Your task to perform on an android device: toggle location history Image 0: 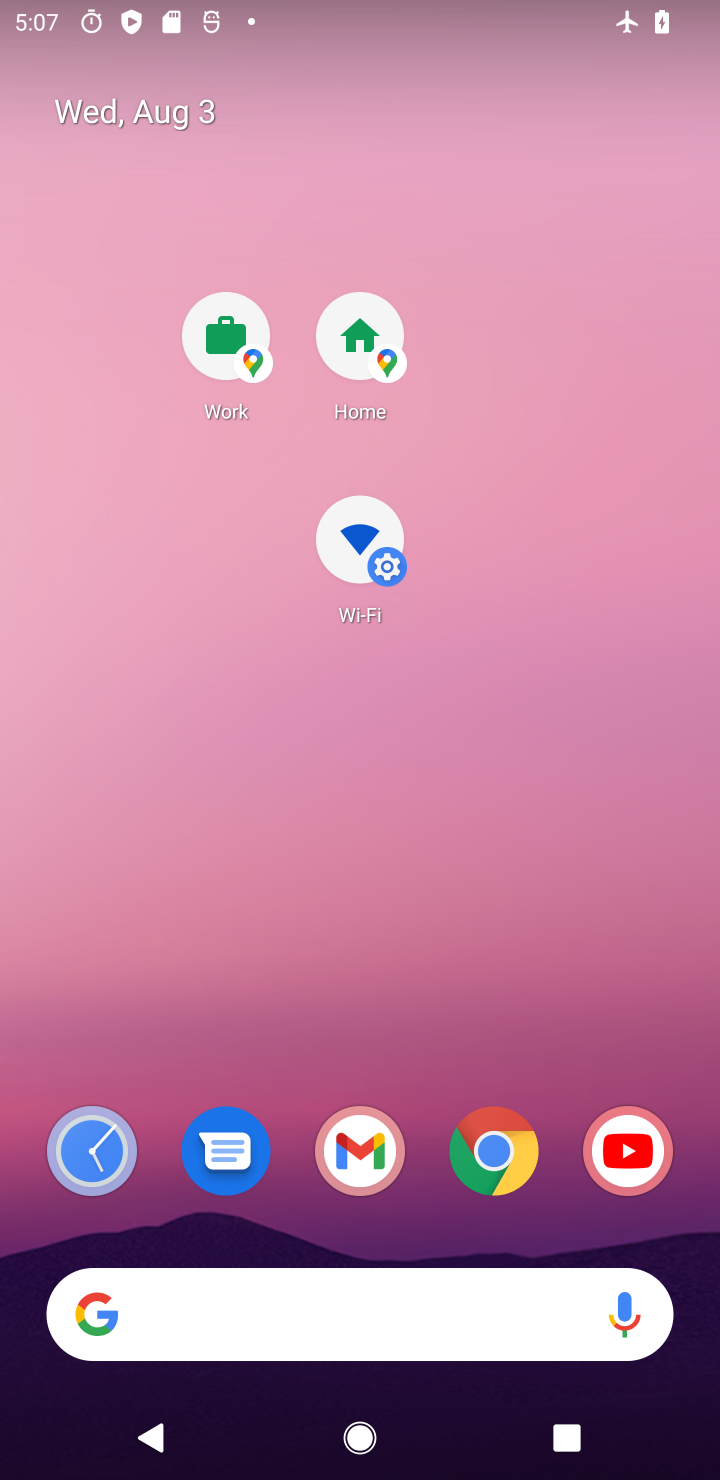
Step 0: drag from (365, 373) to (345, 267)
Your task to perform on an android device: toggle location history Image 1: 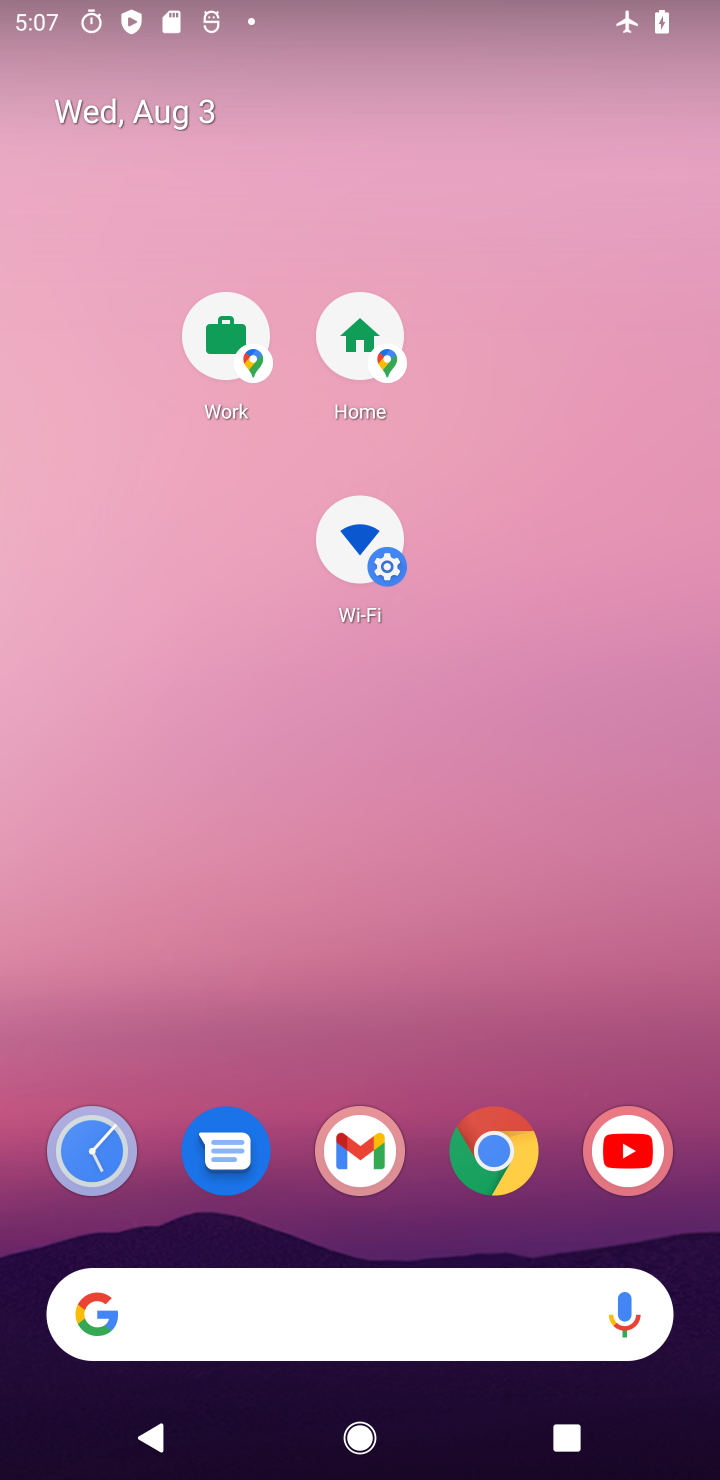
Step 1: drag from (398, 1315) to (233, 434)
Your task to perform on an android device: toggle location history Image 2: 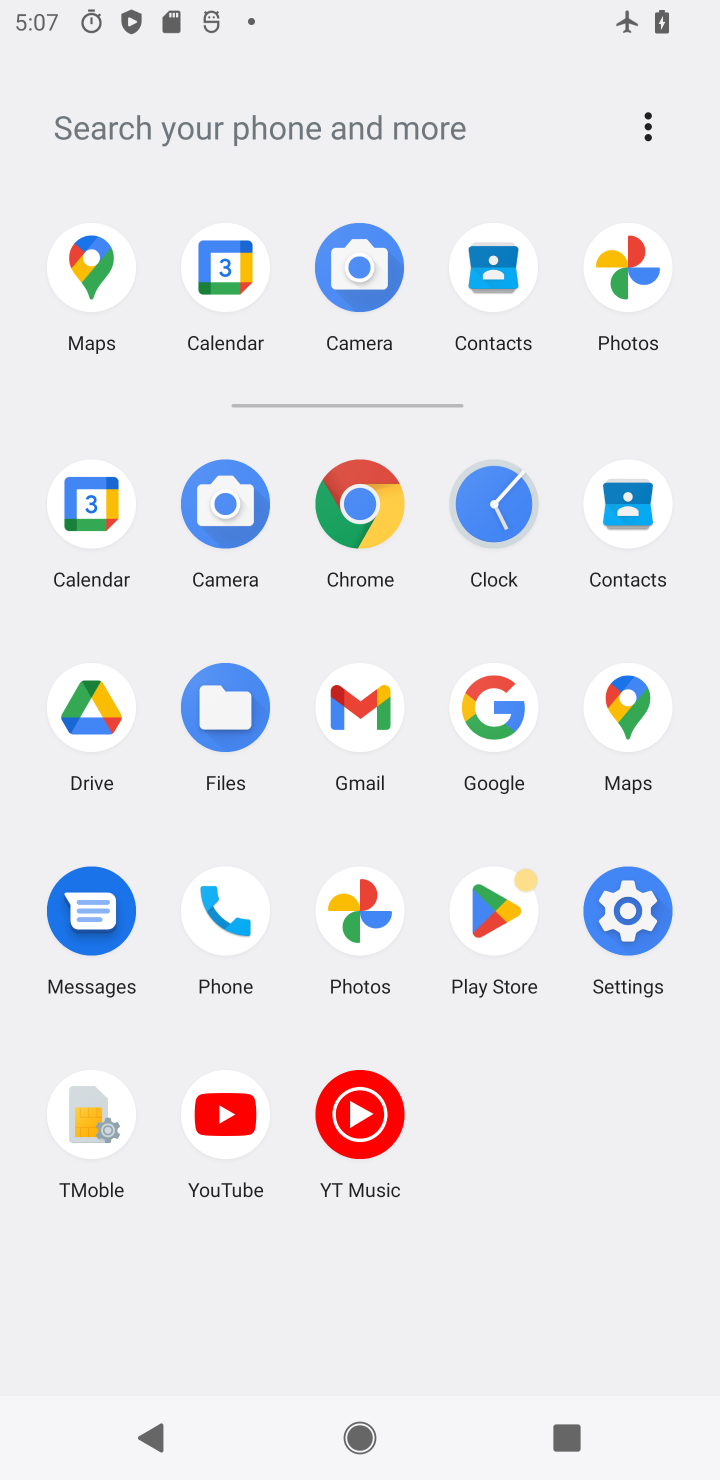
Step 2: click (635, 927)
Your task to perform on an android device: toggle location history Image 3: 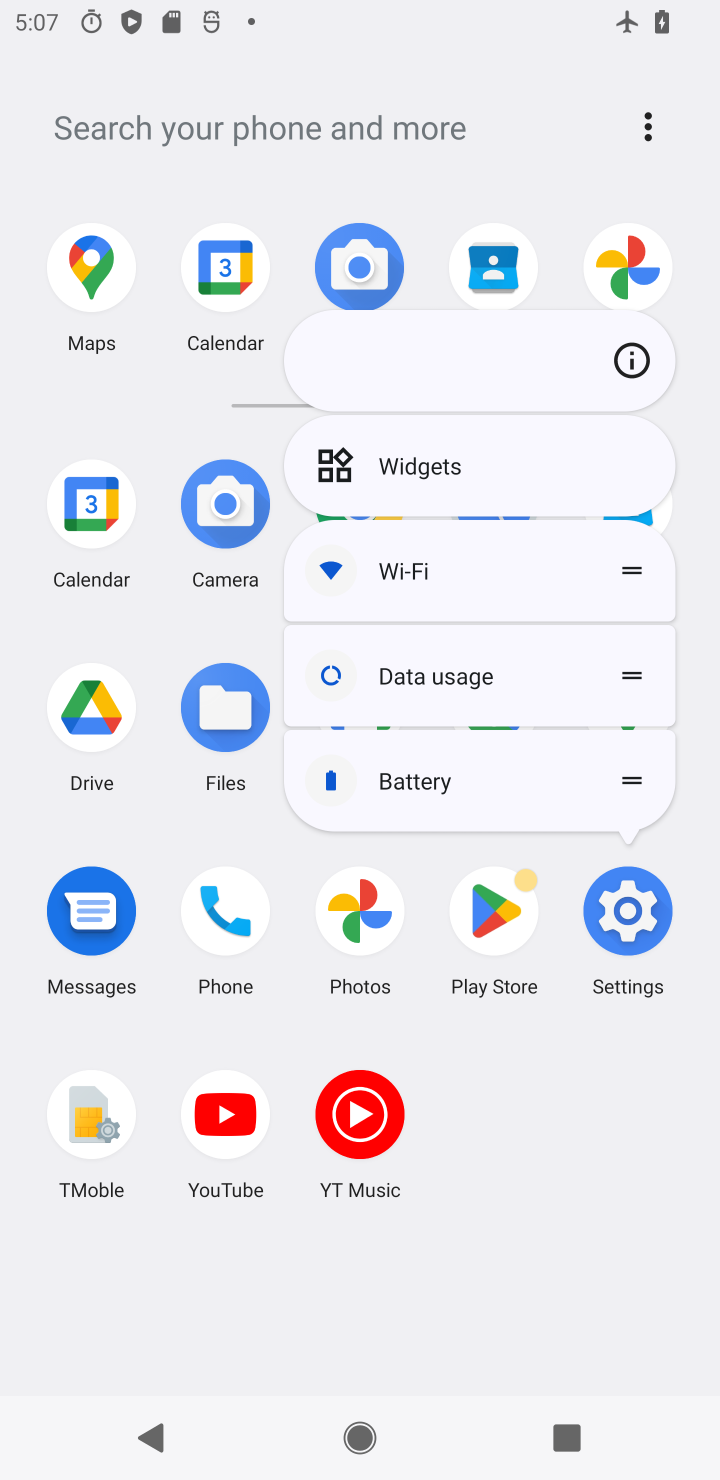
Step 3: click (614, 907)
Your task to perform on an android device: toggle location history Image 4: 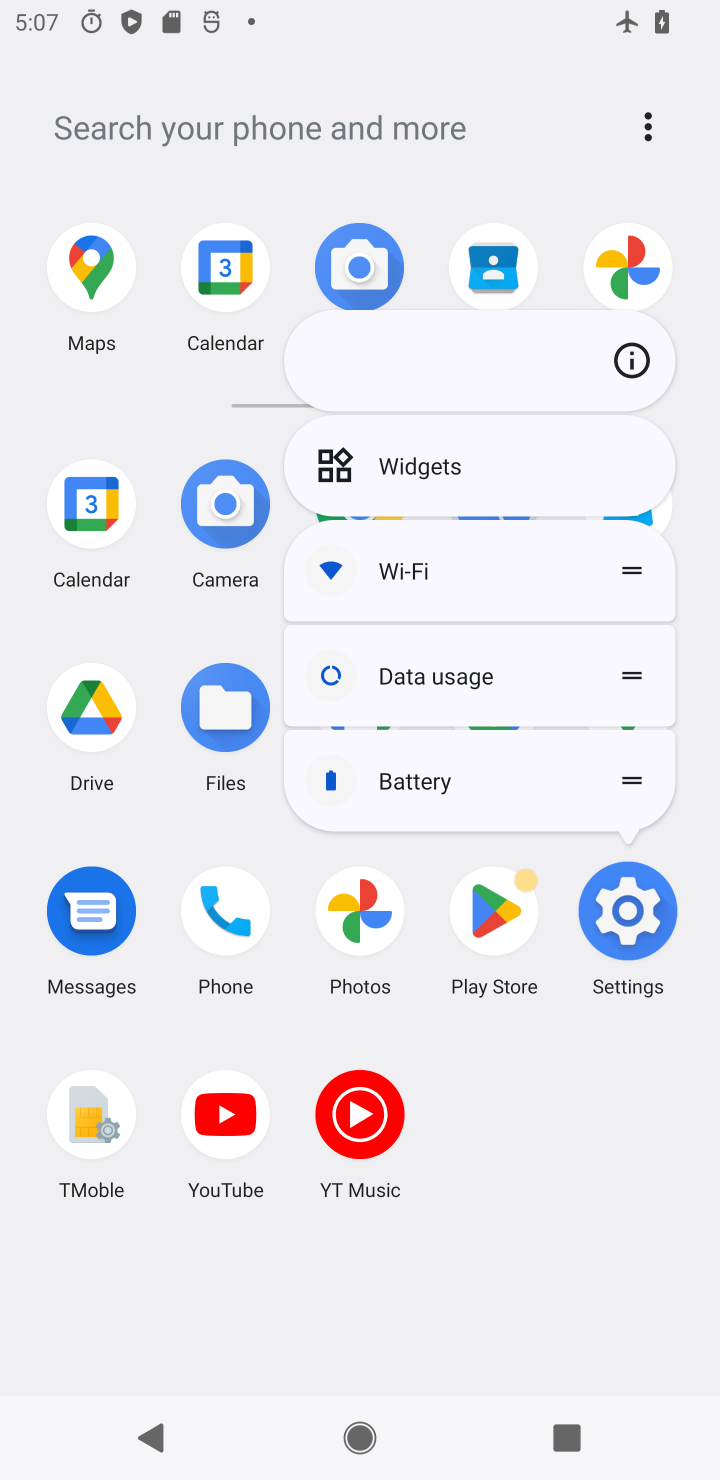
Step 4: click (614, 907)
Your task to perform on an android device: toggle location history Image 5: 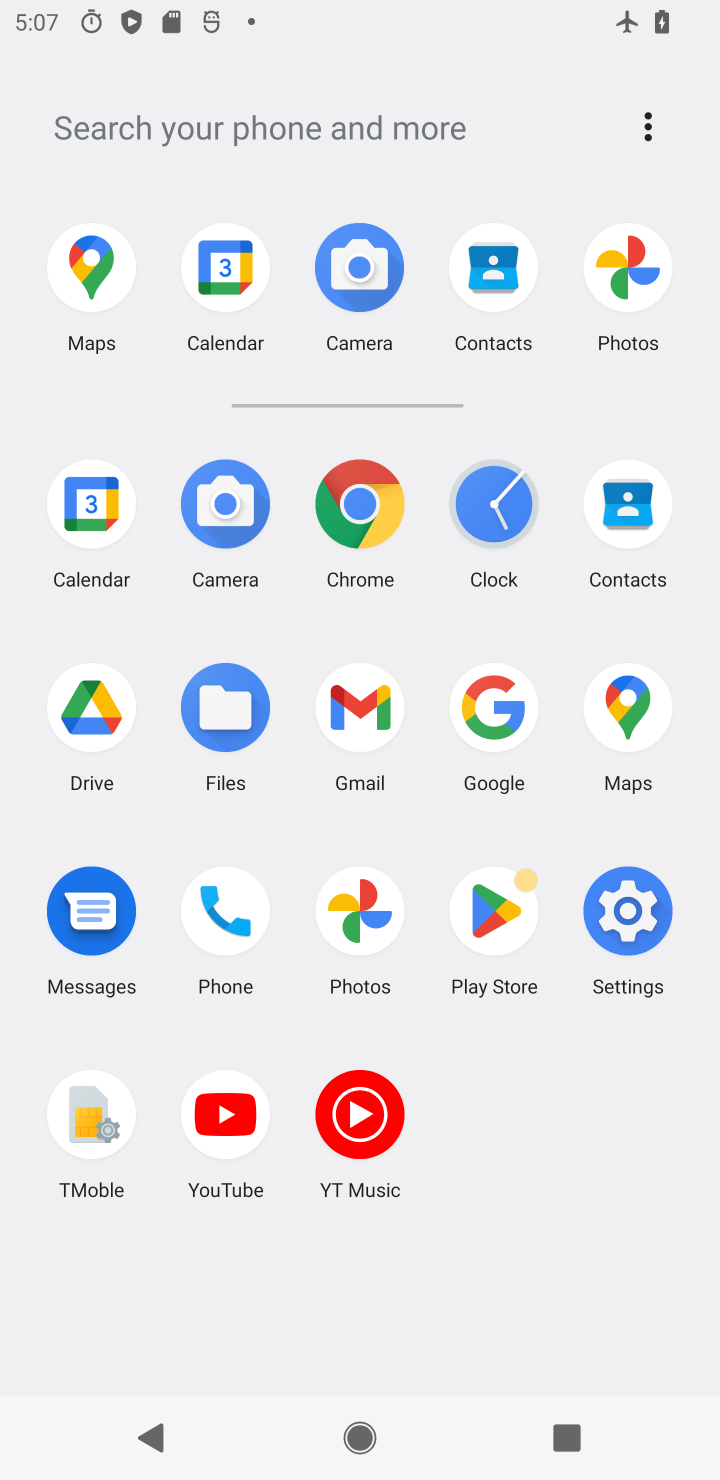
Step 5: click (634, 891)
Your task to perform on an android device: toggle location history Image 6: 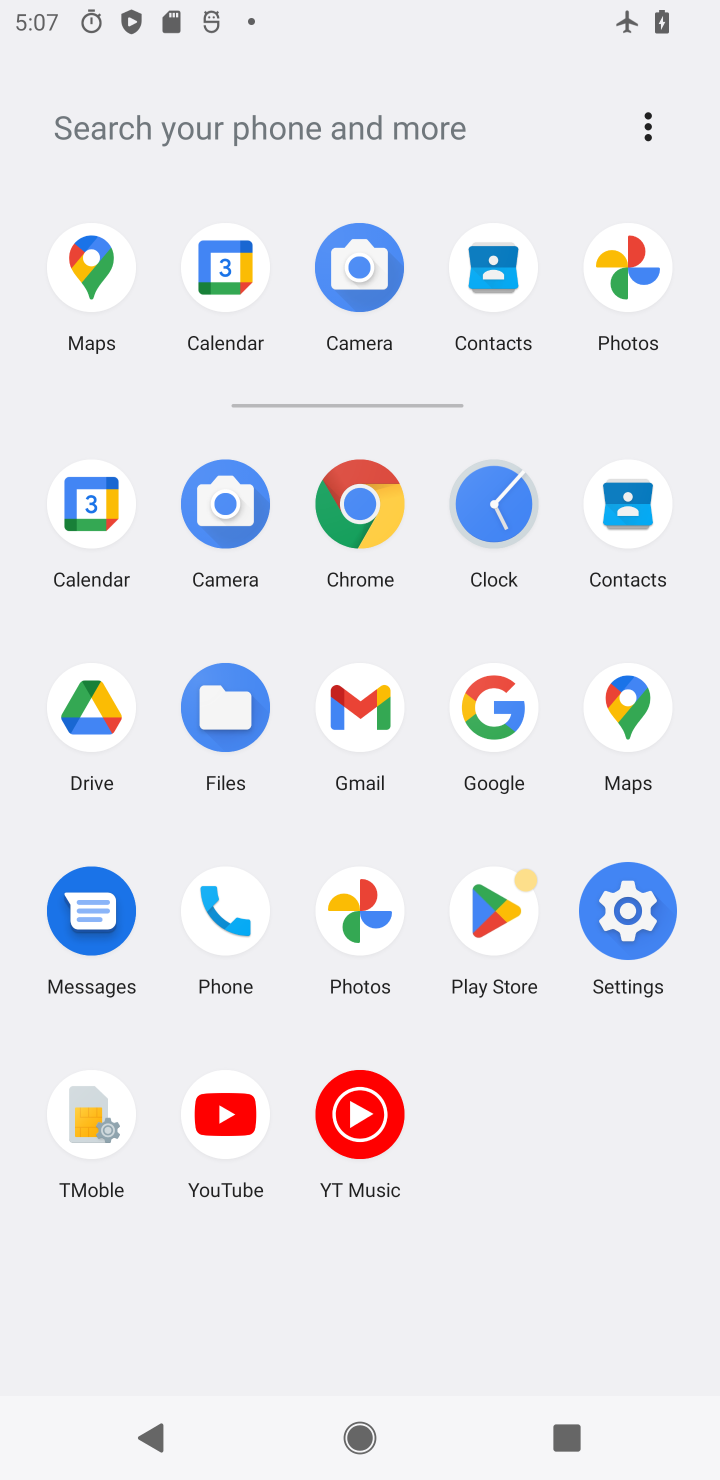
Step 6: click (636, 893)
Your task to perform on an android device: toggle location history Image 7: 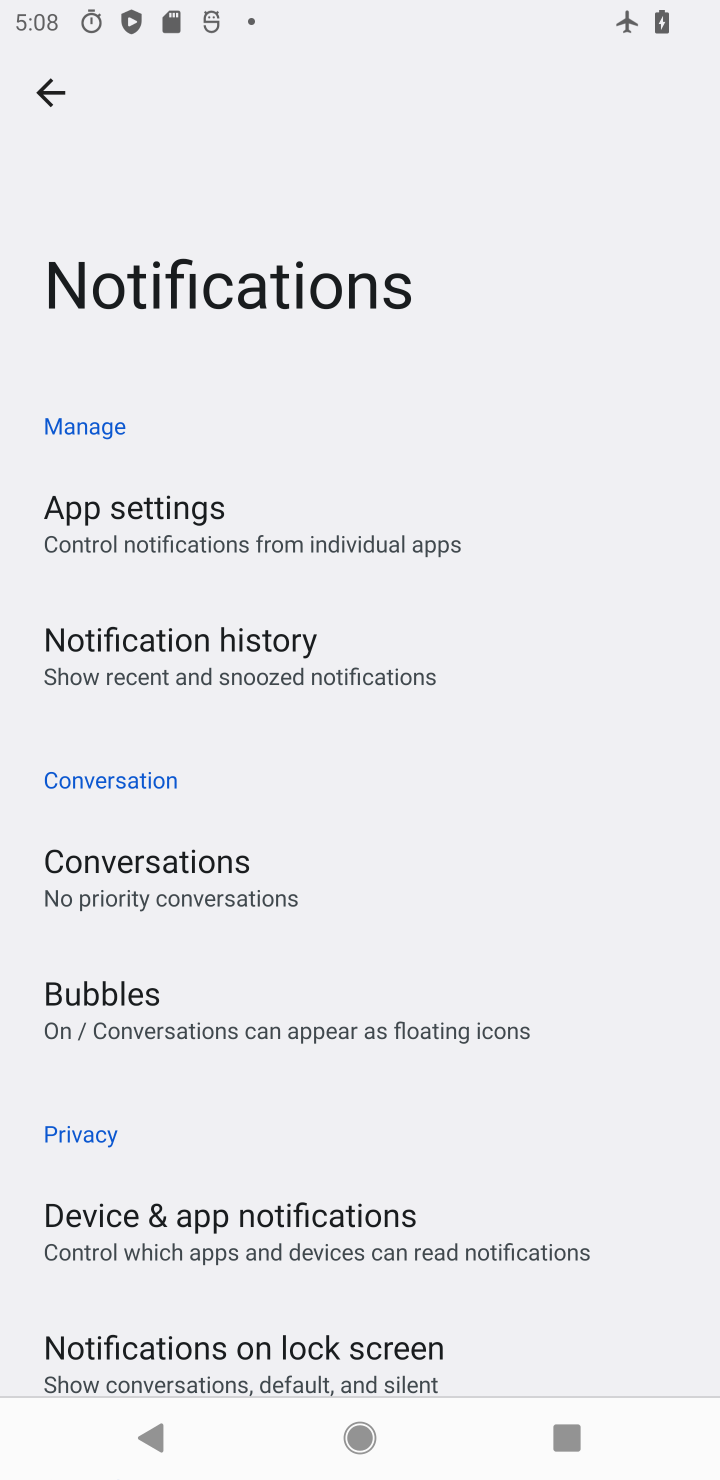
Step 7: drag from (238, 1167) to (178, 491)
Your task to perform on an android device: toggle location history Image 8: 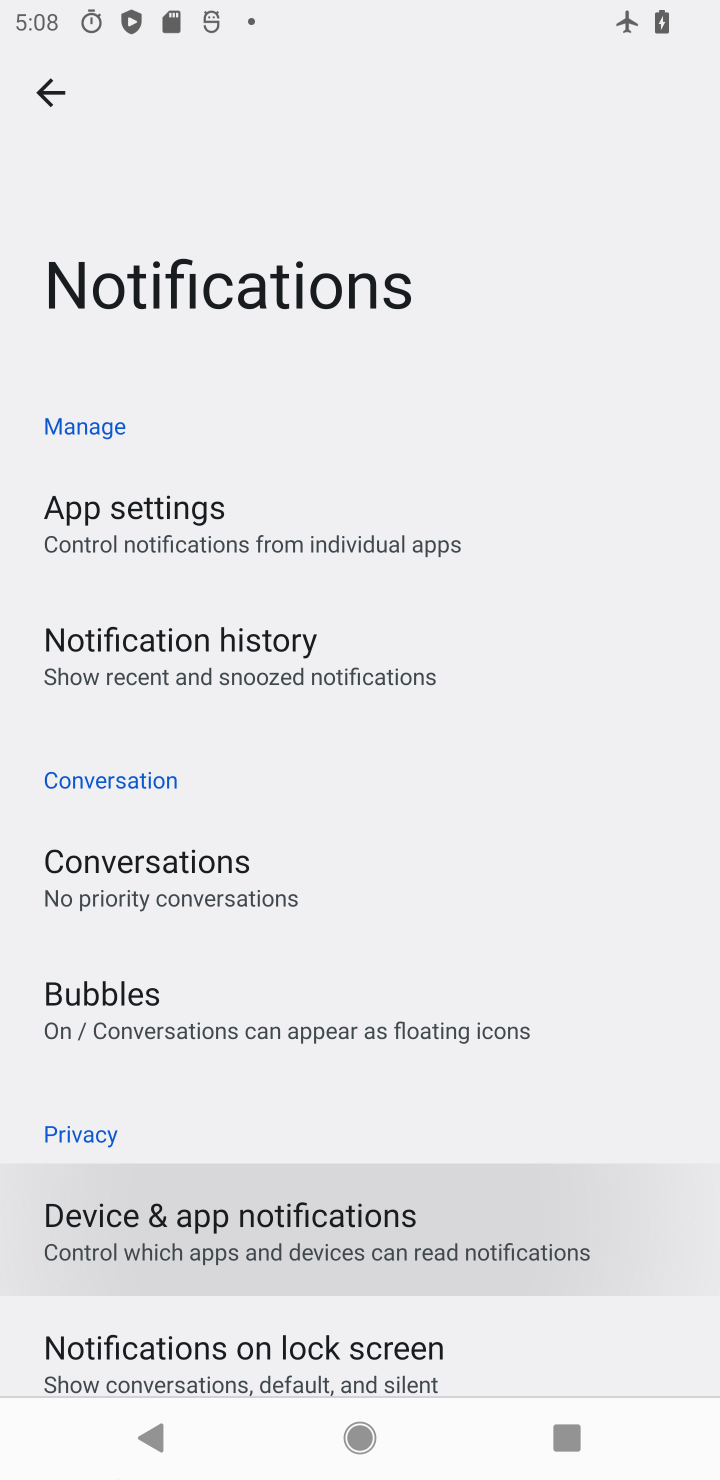
Step 8: click (203, 612)
Your task to perform on an android device: toggle location history Image 9: 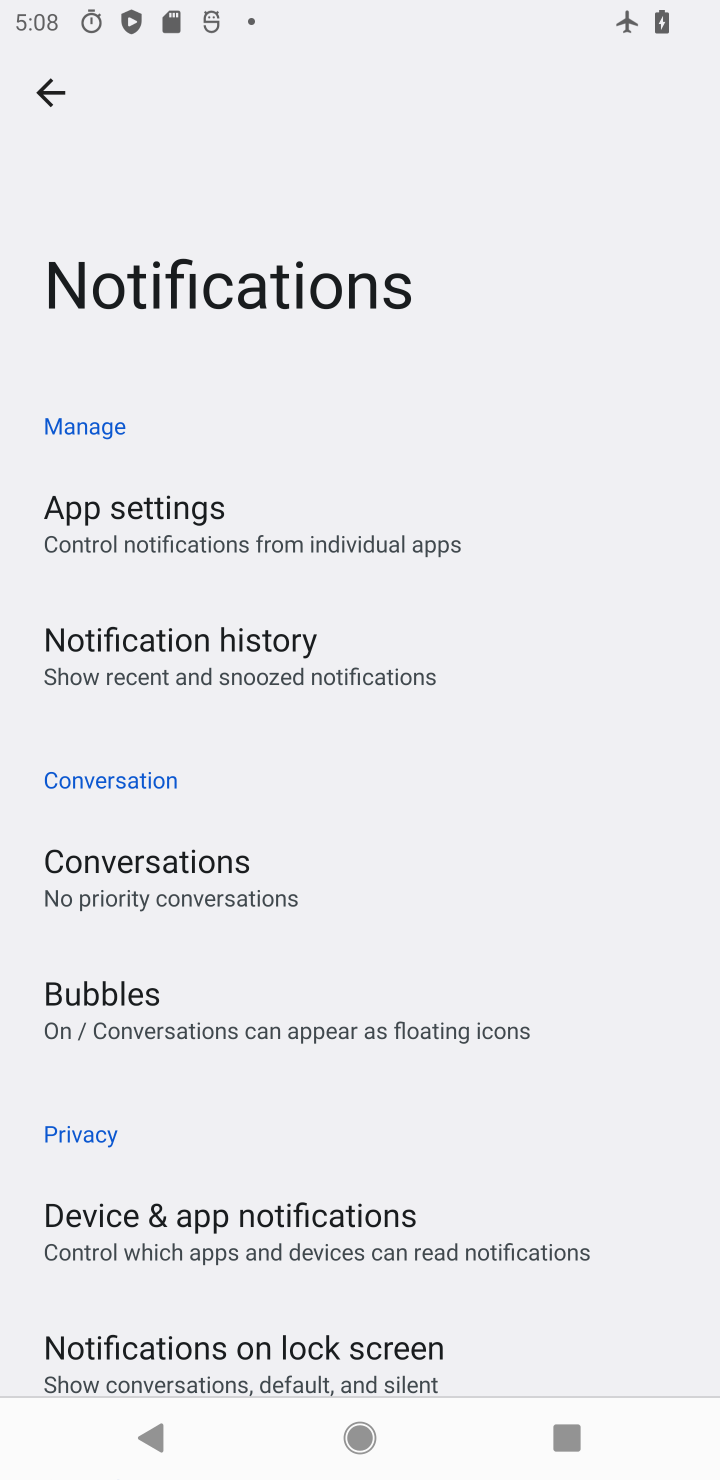
Step 9: drag from (250, 966) to (261, 537)
Your task to perform on an android device: toggle location history Image 10: 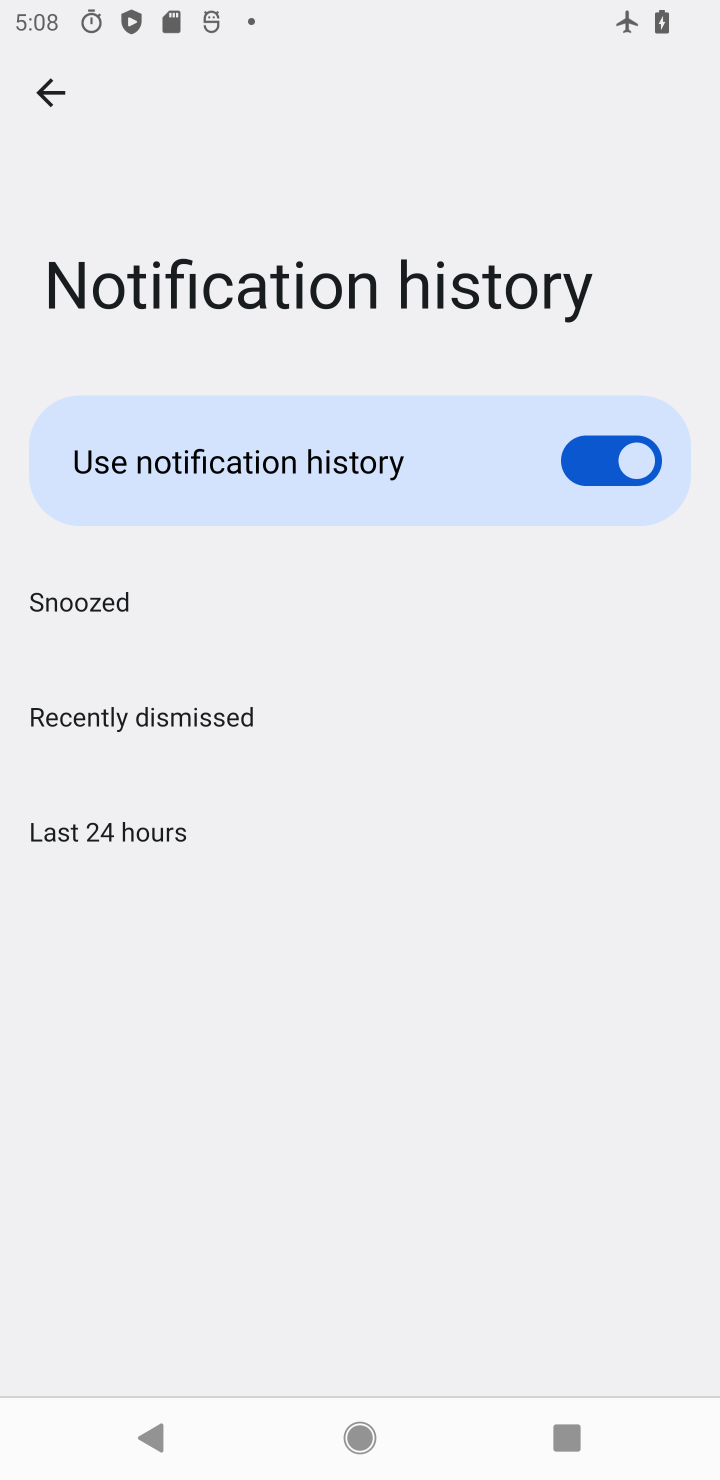
Step 10: drag from (301, 1013) to (240, 544)
Your task to perform on an android device: toggle location history Image 11: 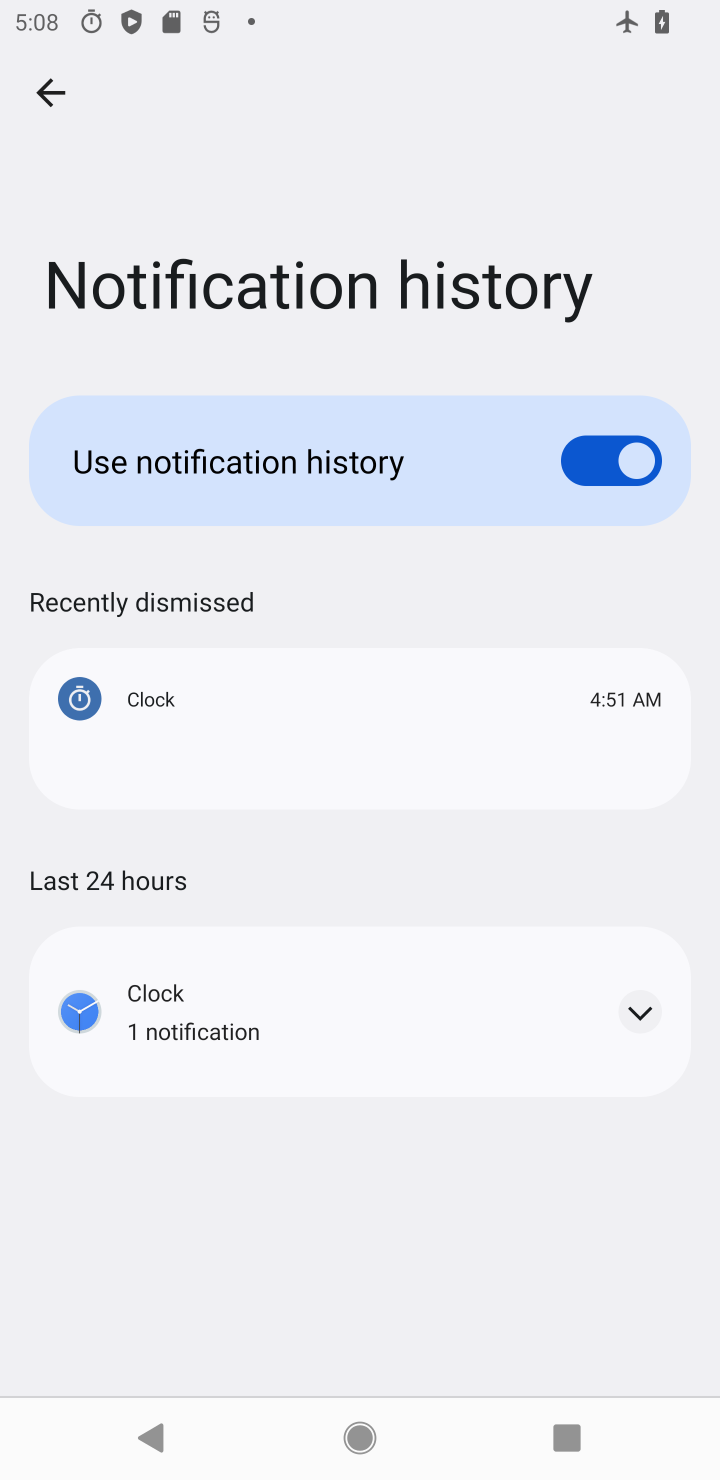
Step 11: click (50, 67)
Your task to perform on an android device: toggle location history Image 12: 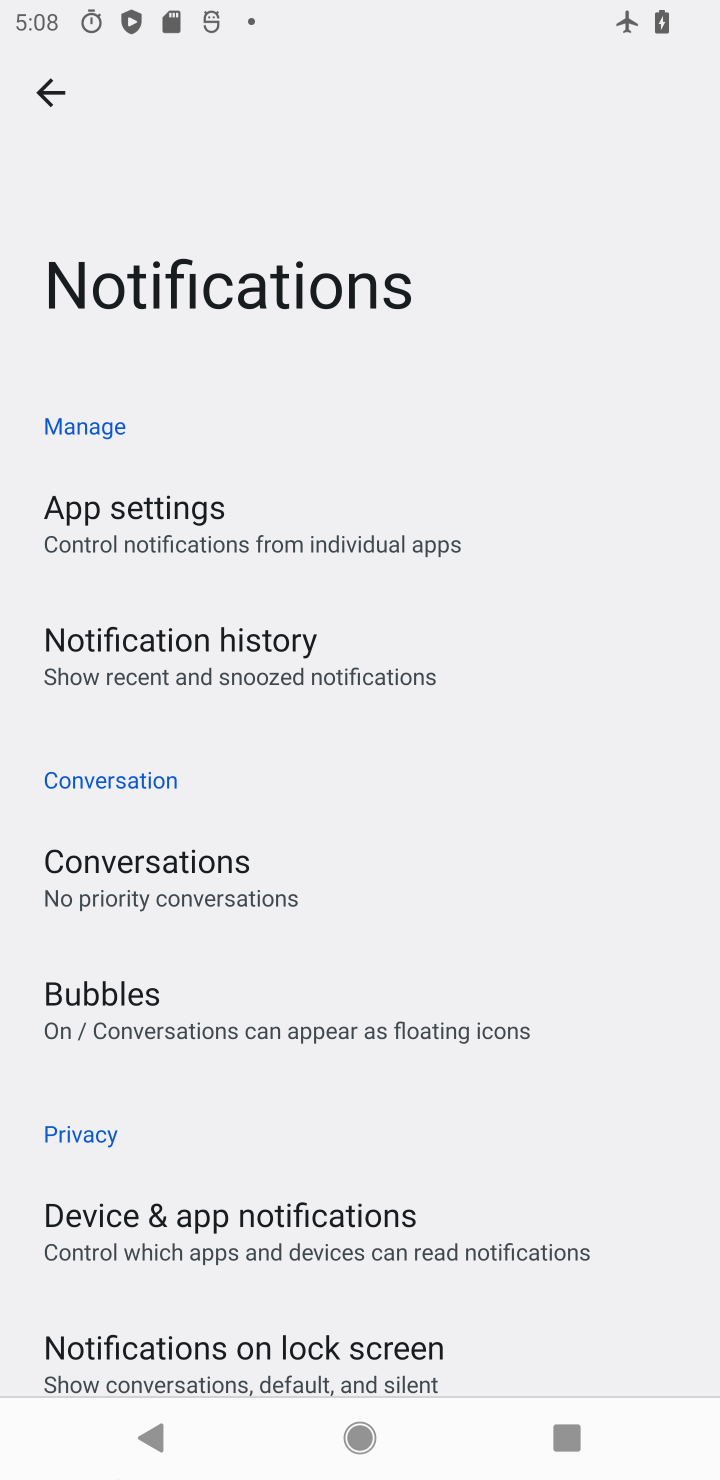
Step 12: drag from (236, 1297) to (190, 713)
Your task to perform on an android device: toggle location history Image 13: 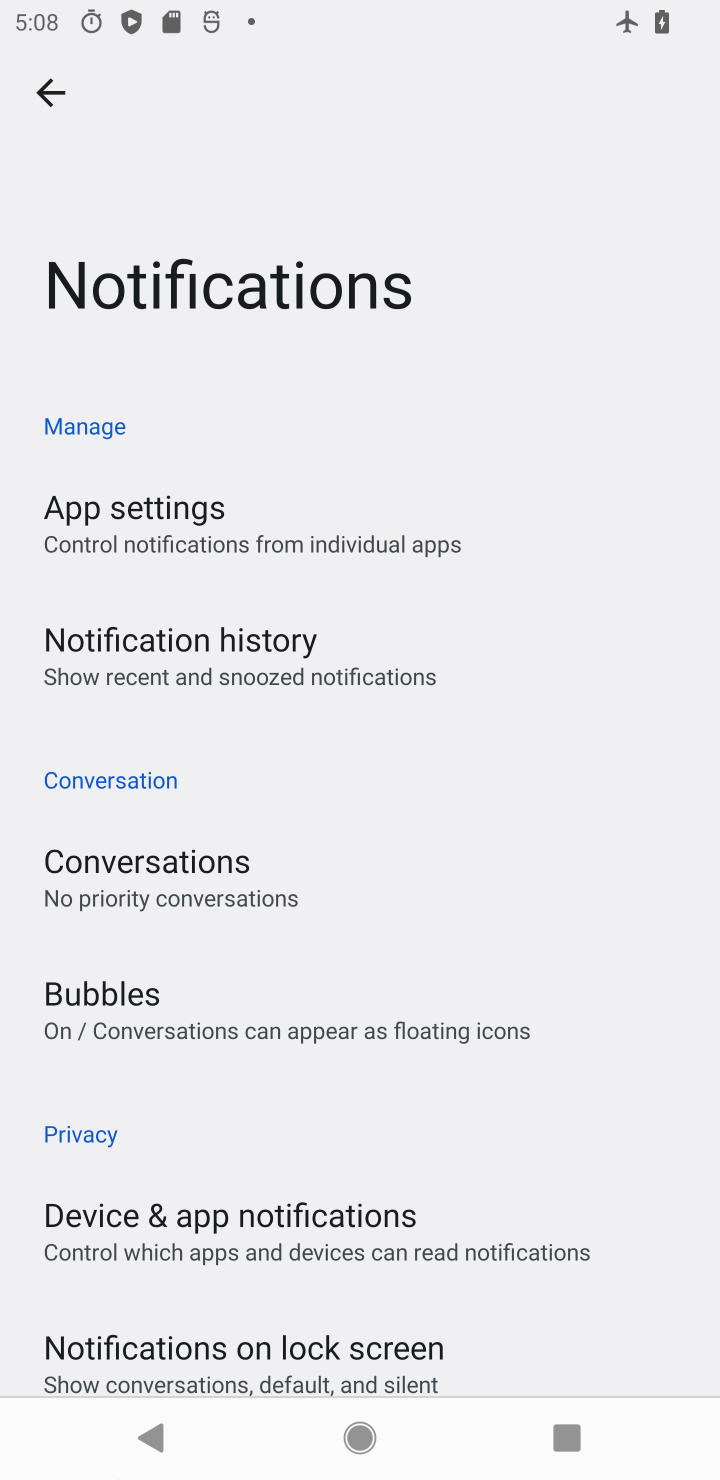
Step 13: drag from (386, 1071) to (441, 620)
Your task to perform on an android device: toggle location history Image 14: 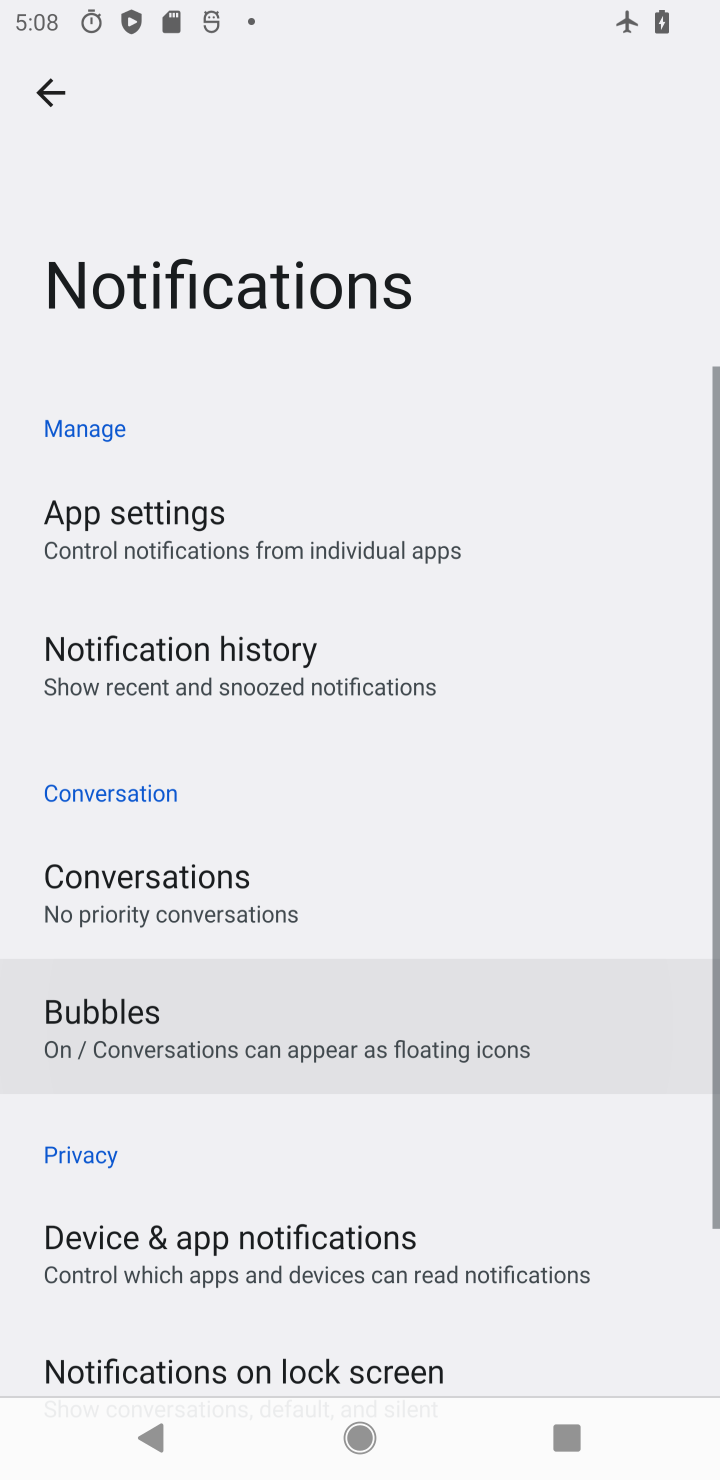
Step 14: drag from (371, 869) to (344, 682)
Your task to perform on an android device: toggle location history Image 15: 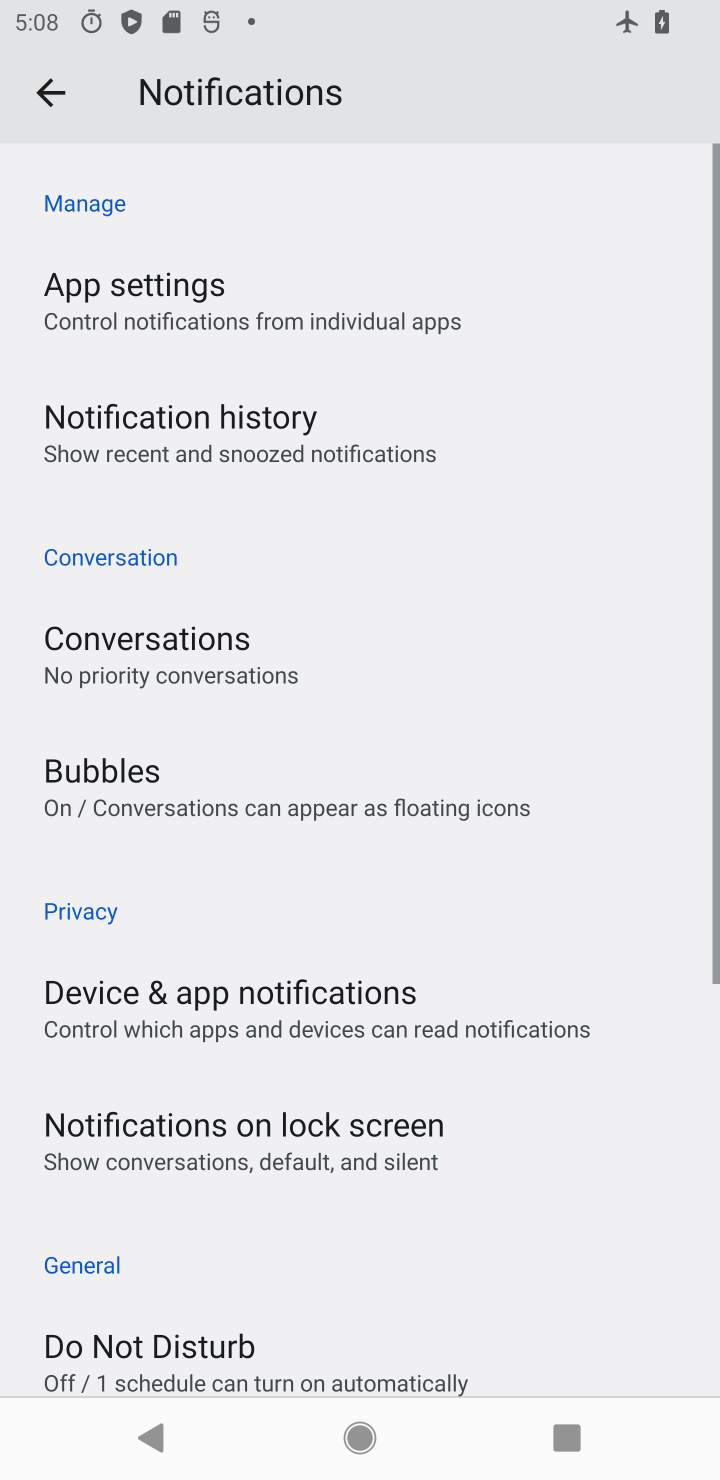
Step 15: click (52, 97)
Your task to perform on an android device: toggle location history Image 16: 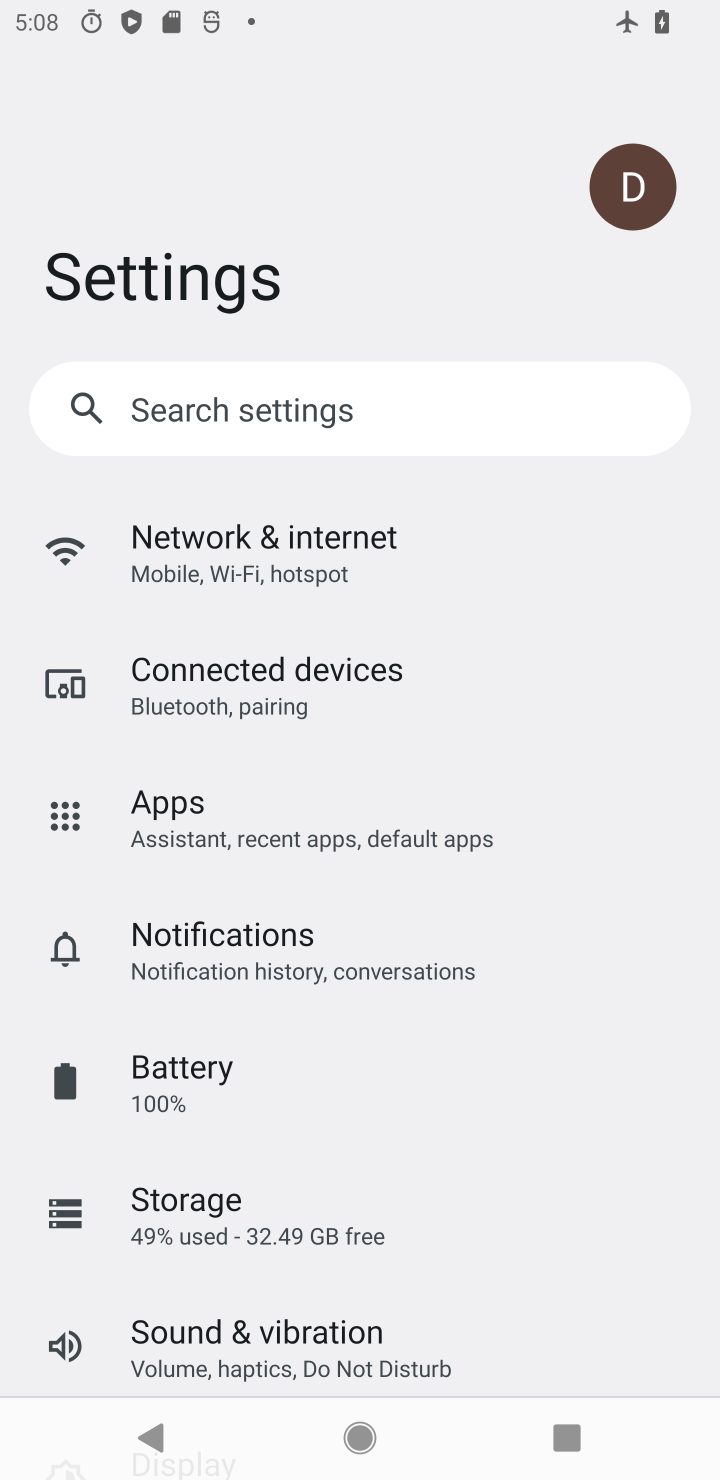
Step 16: drag from (242, 1148) to (165, 563)
Your task to perform on an android device: toggle location history Image 17: 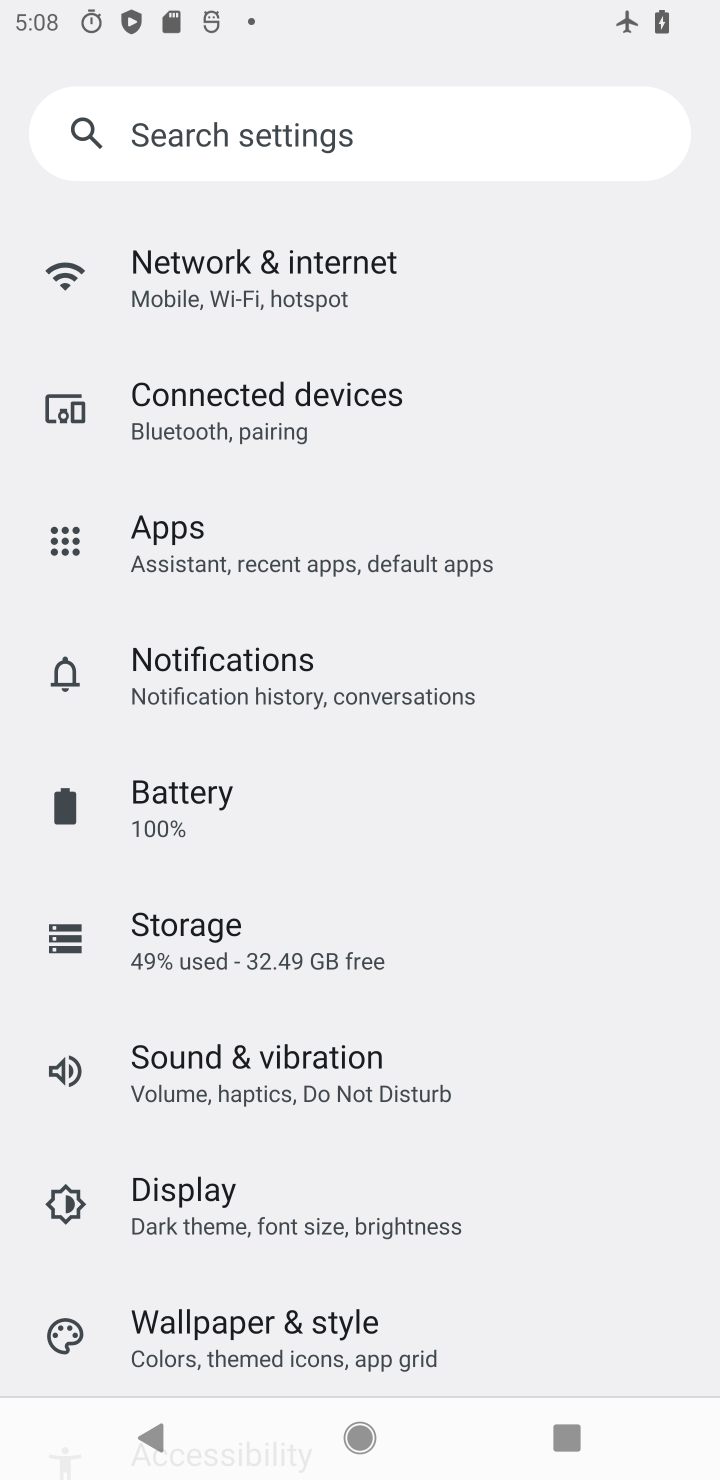
Step 17: drag from (175, 910) to (105, 443)
Your task to perform on an android device: toggle location history Image 18: 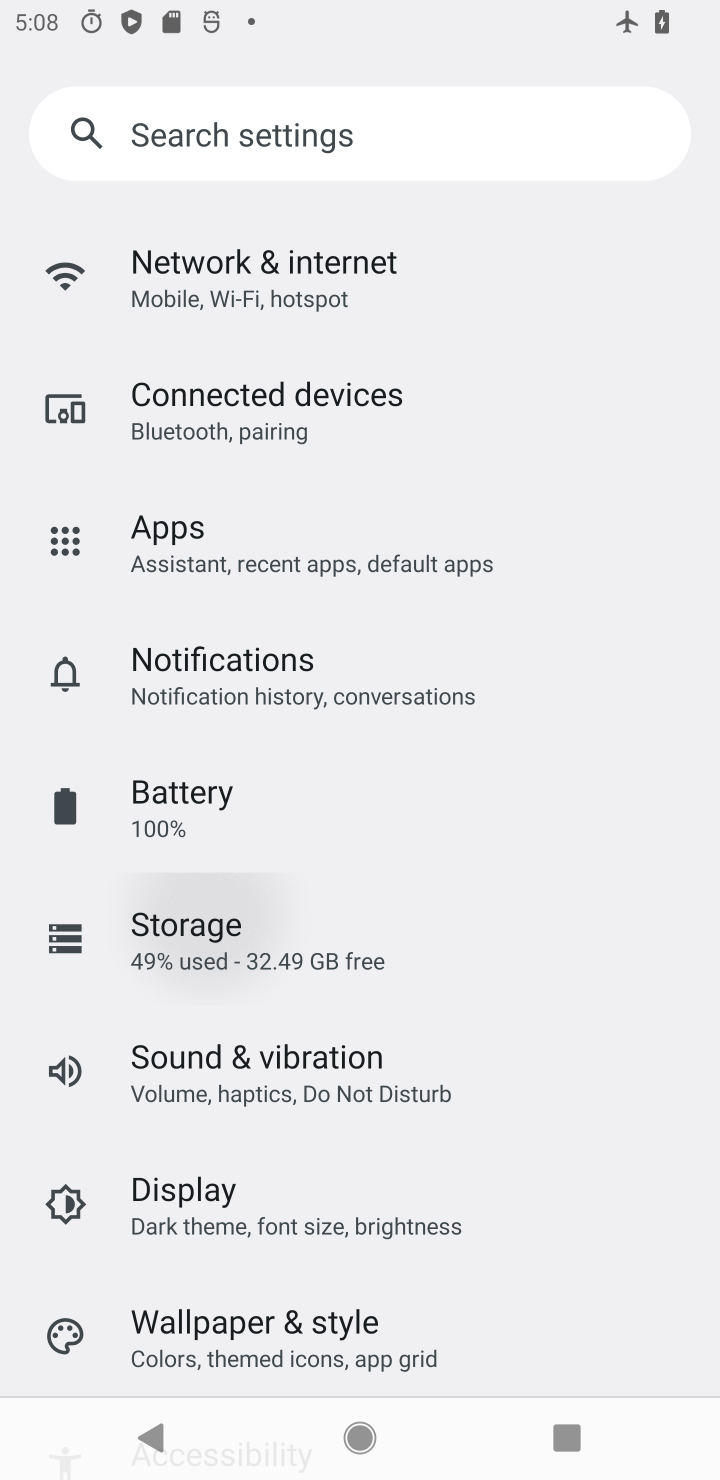
Step 18: drag from (181, 860) to (174, 506)
Your task to perform on an android device: toggle location history Image 19: 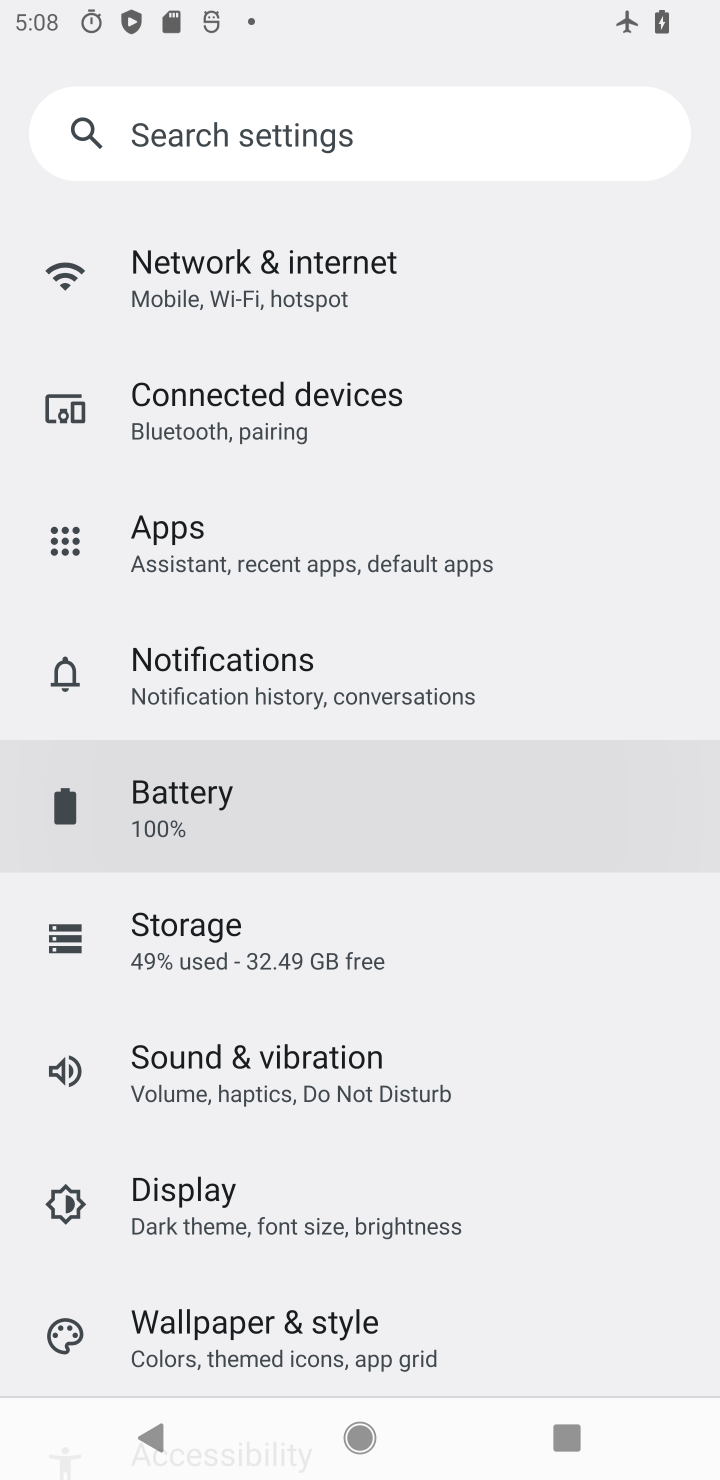
Step 19: drag from (283, 1117) to (306, 600)
Your task to perform on an android device: toggle location history Image 20: 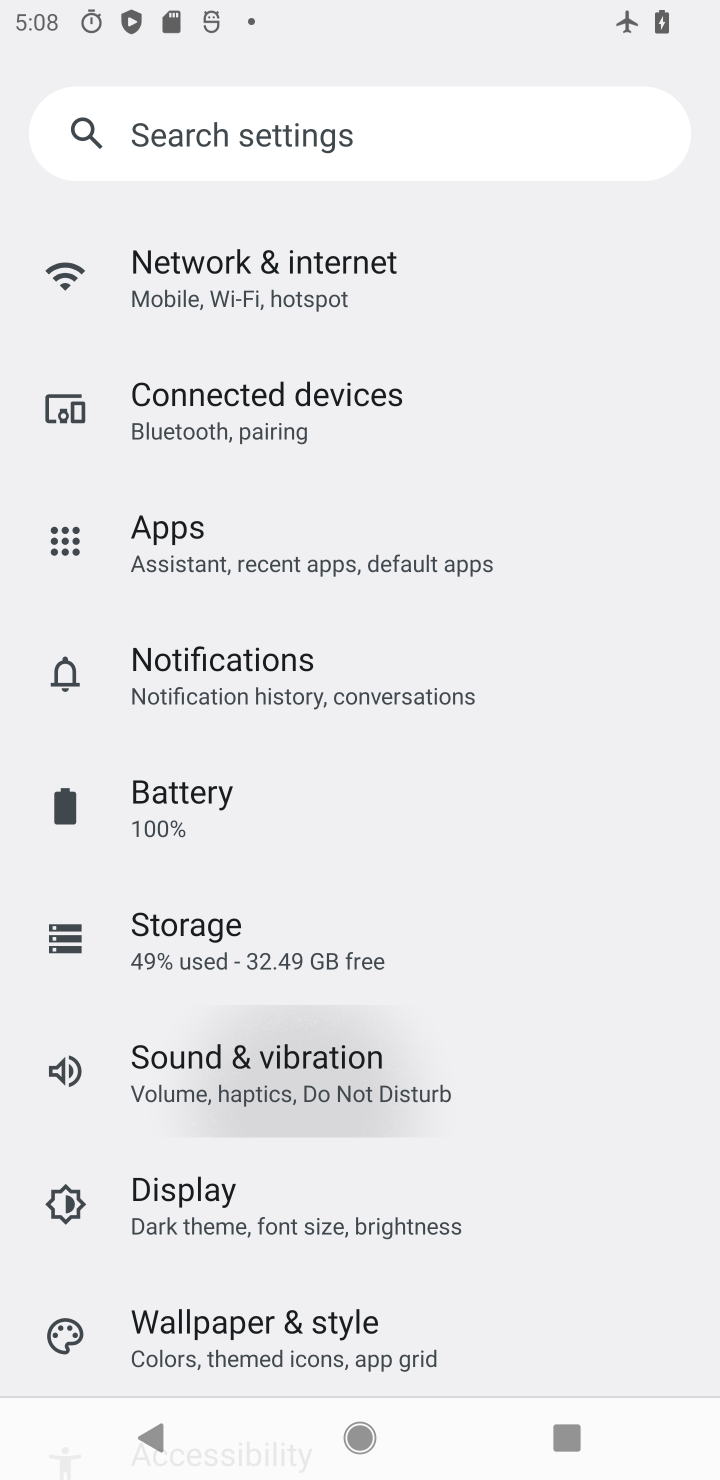
Step 20: drag from (229, 1133) to (171, 648)
Your task to perform on an android device: toggle location history Image 21: 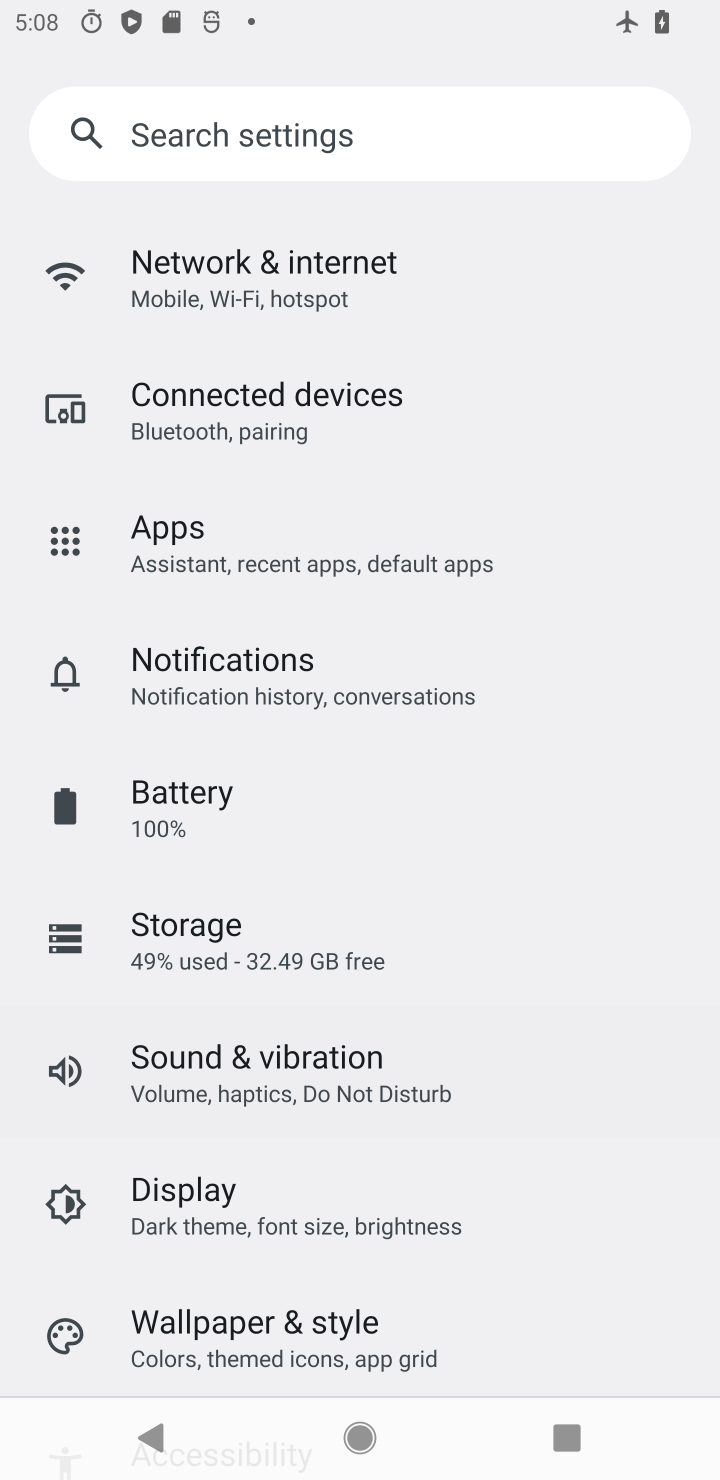
Step 21: drag from (248, 1230) to (154, 713)
Your task to perform on an android device: toggle location history Image 22: 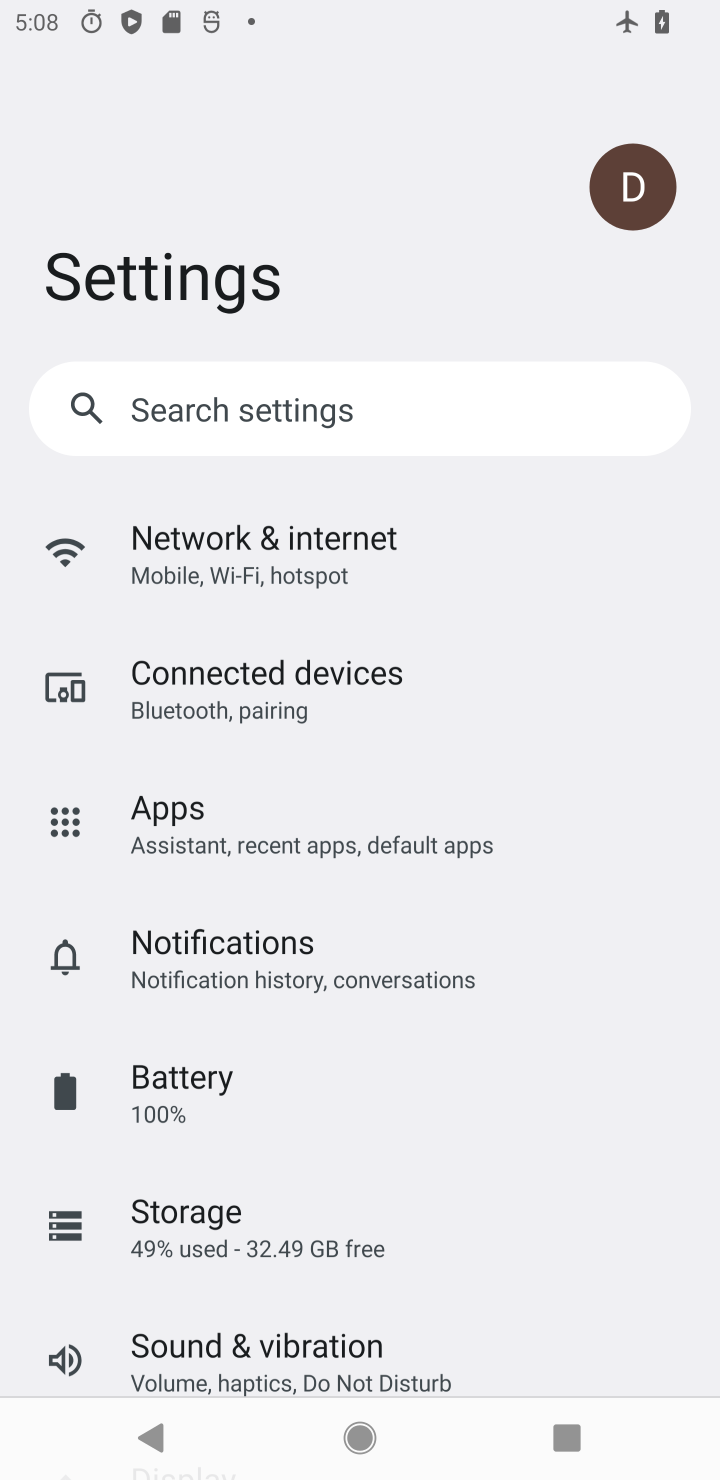
Step 22: drag from (244, 1139) to (324, 543)
Your task to perform on an android device: toggle location history Image 23: 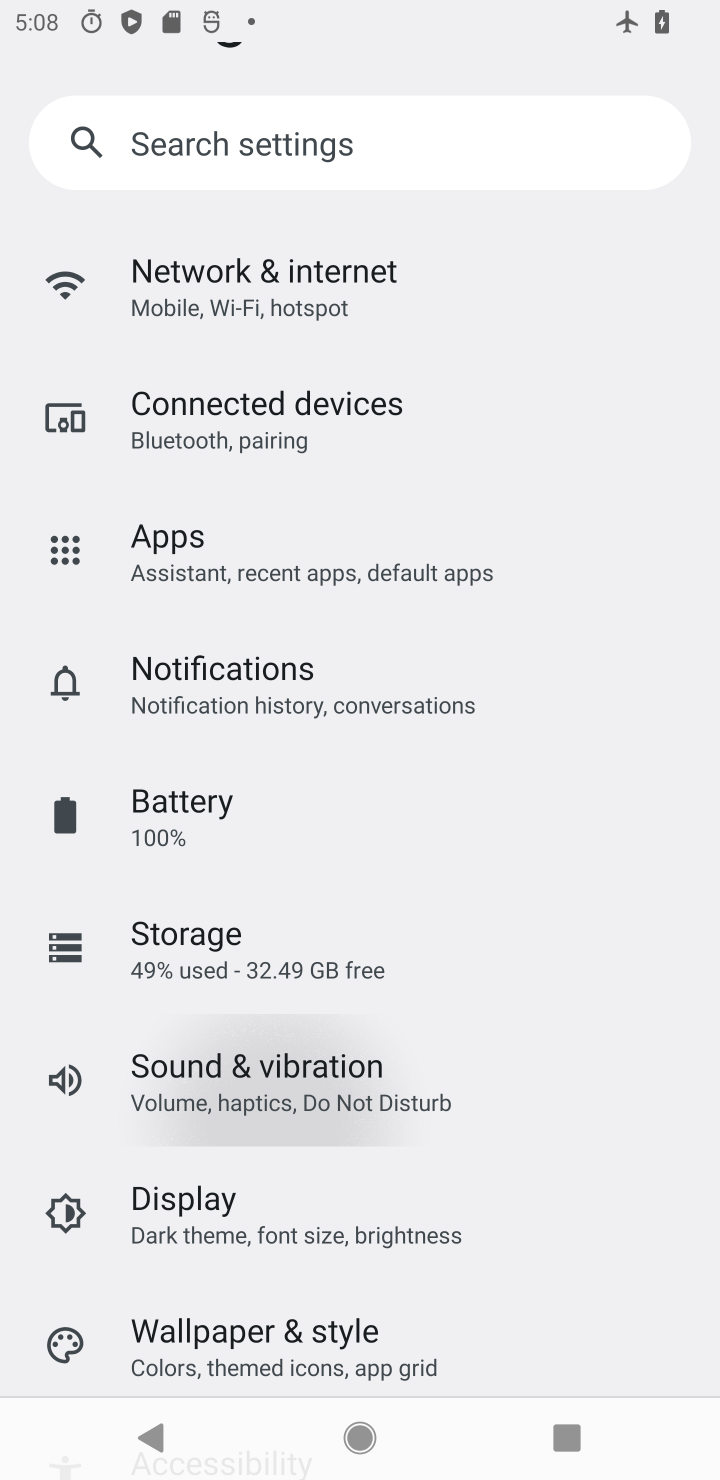
Step 23: click (361, 540)
Your task to perform on an android device: toggle location history Image 24: 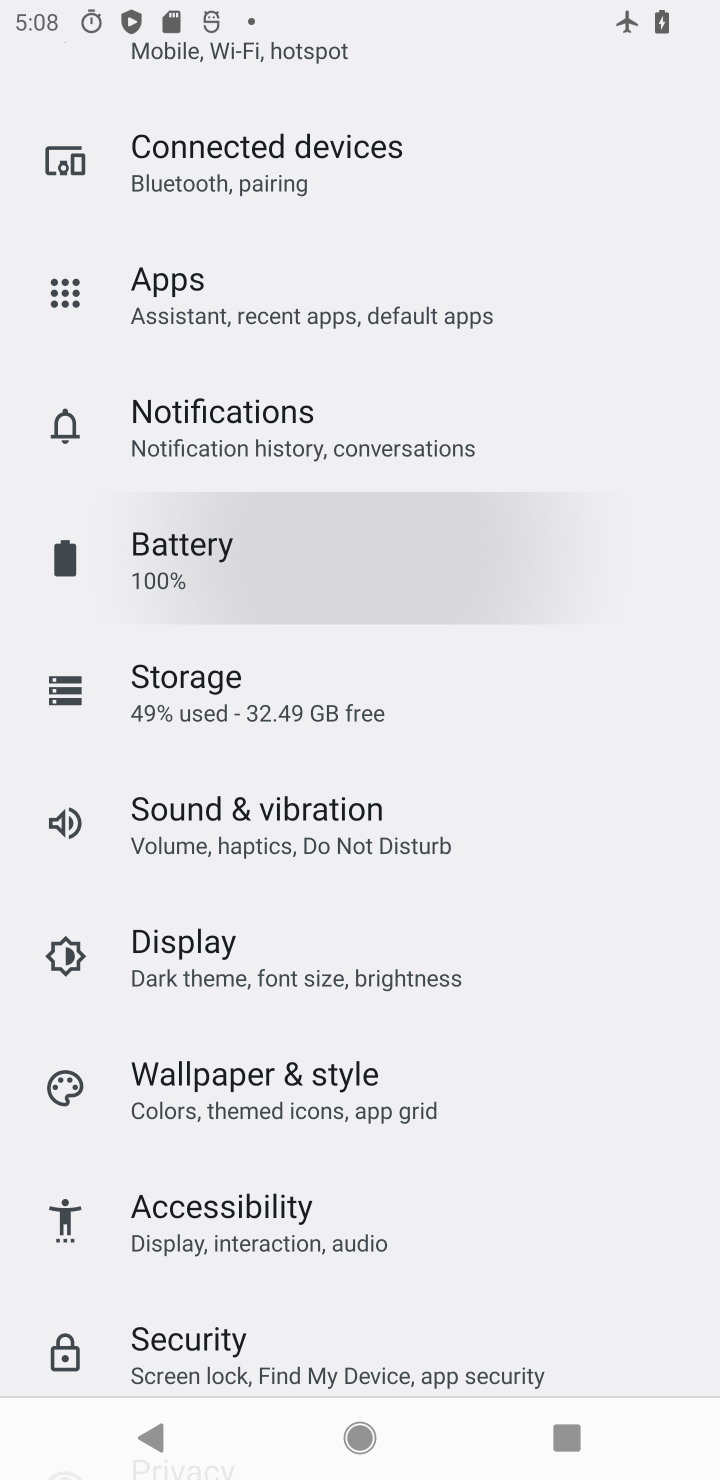
Step 24: drag from (463, 1203) to (575, 370)
Your task to perform on an android device: toggle location history Image 25: 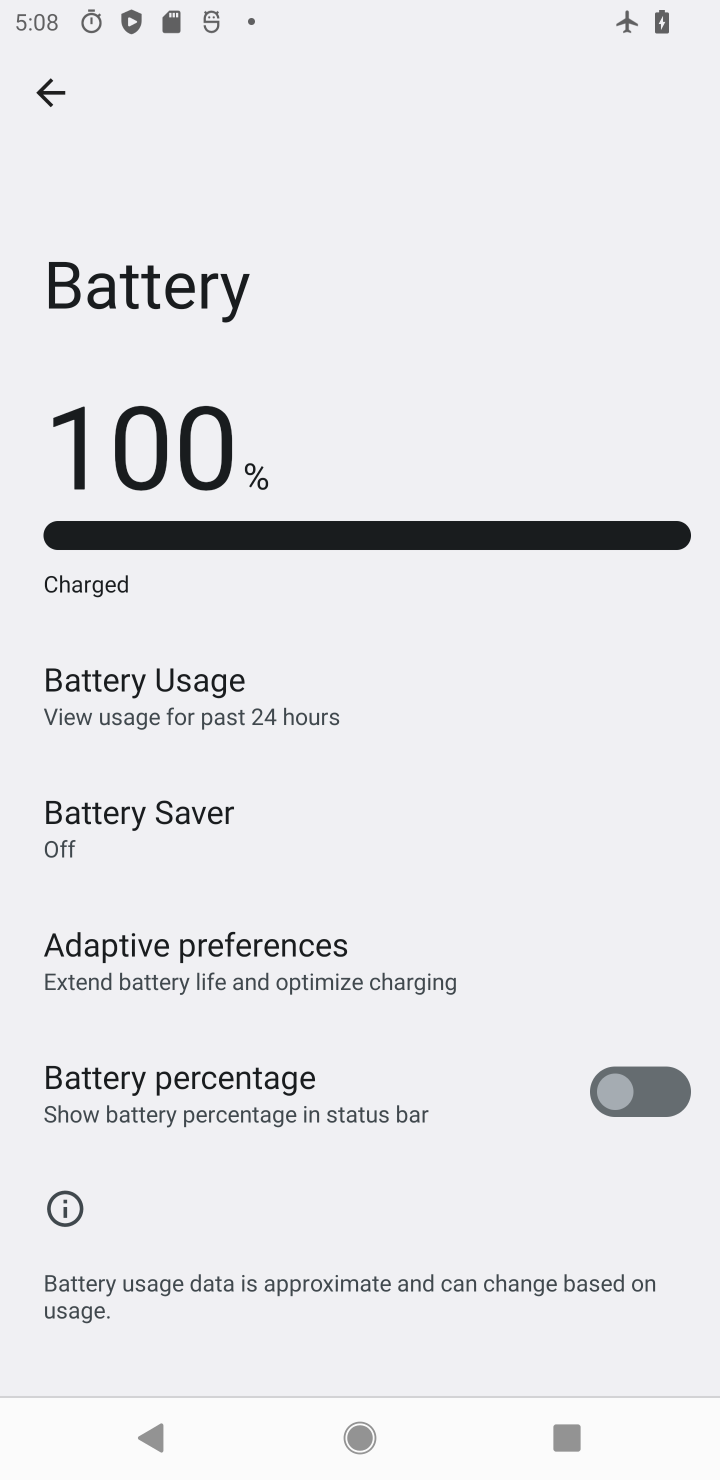
Step 25: click (37, 117)
Your task to perform on an android device: toggle location history Image 26: 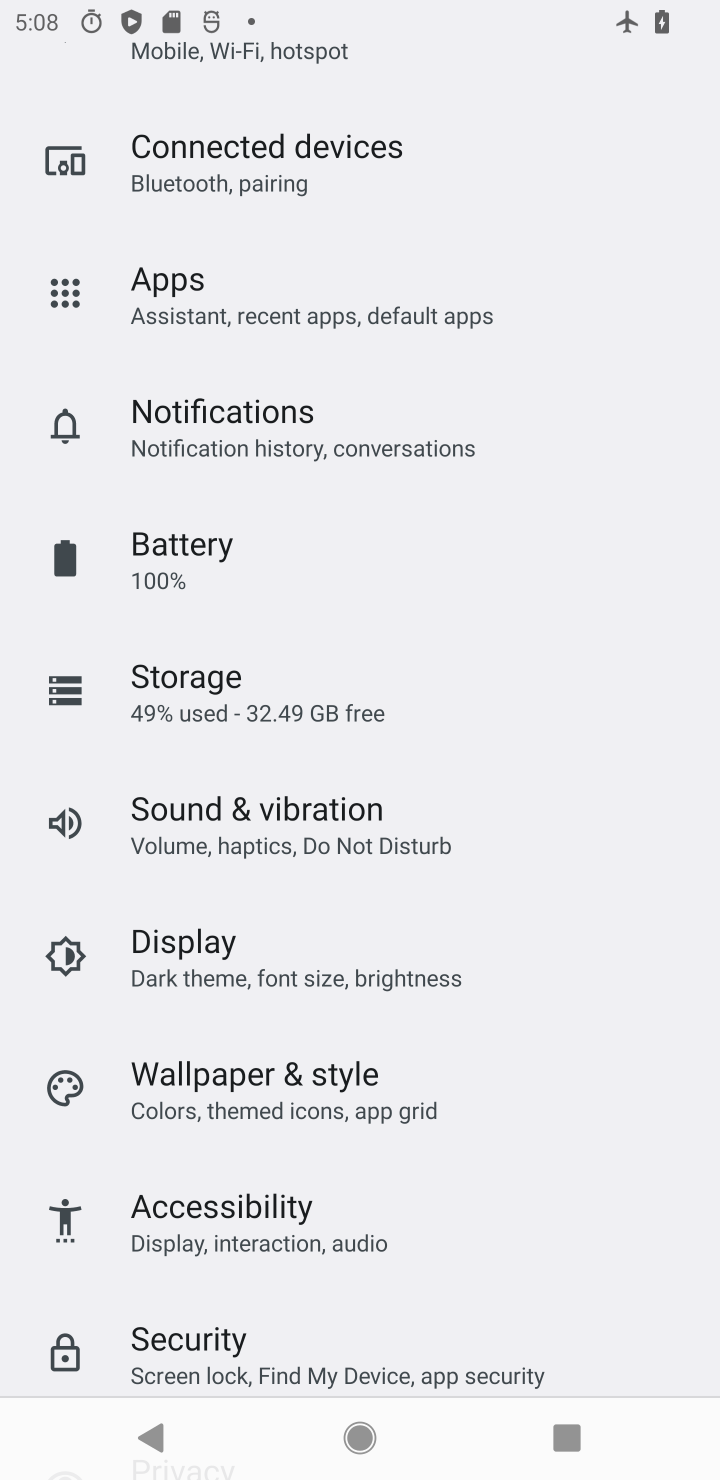
Step 26: drag from (399, 1237) to (512, 441)
Your task to perform on an android device: toggle location history Image 27: 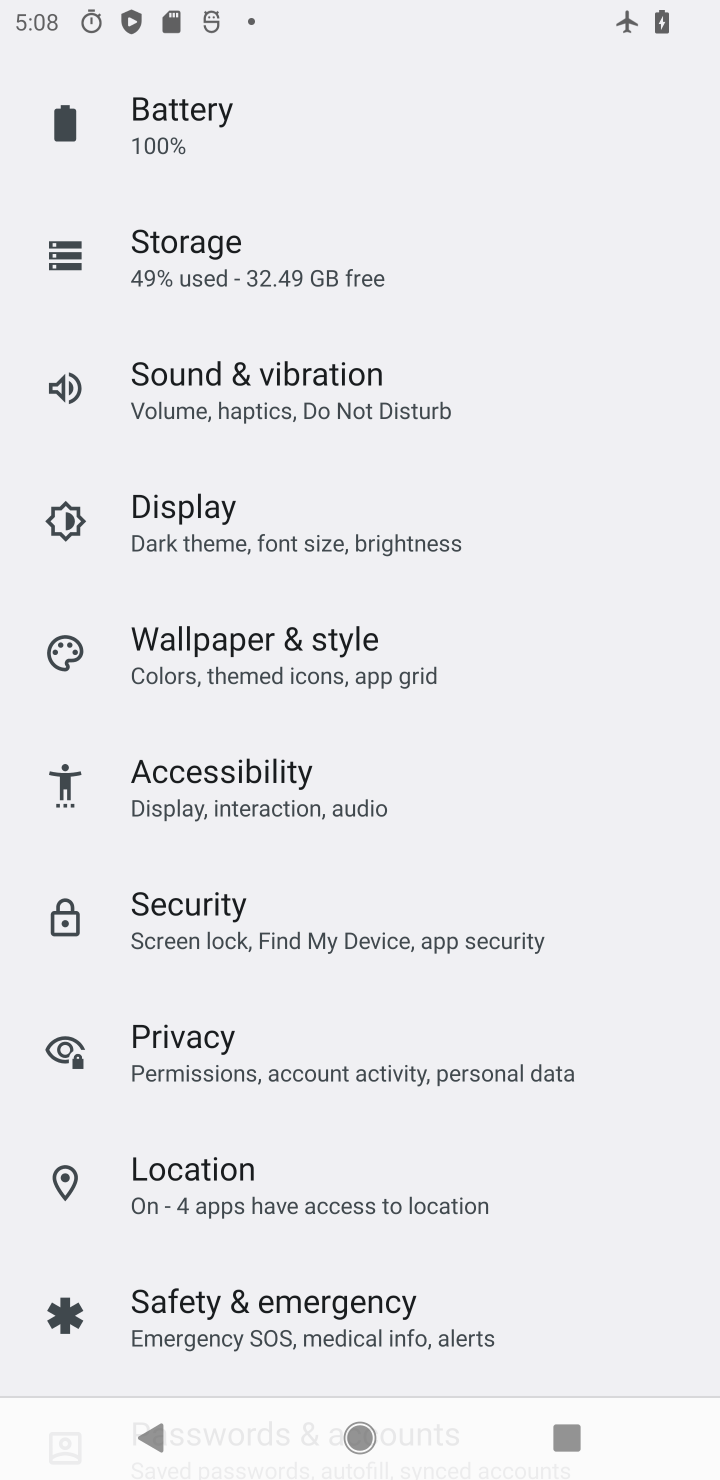
Step 27: drag from (481, 371) to (648, 1053)
Your task to perform on an android device: toggle location history Image 28: 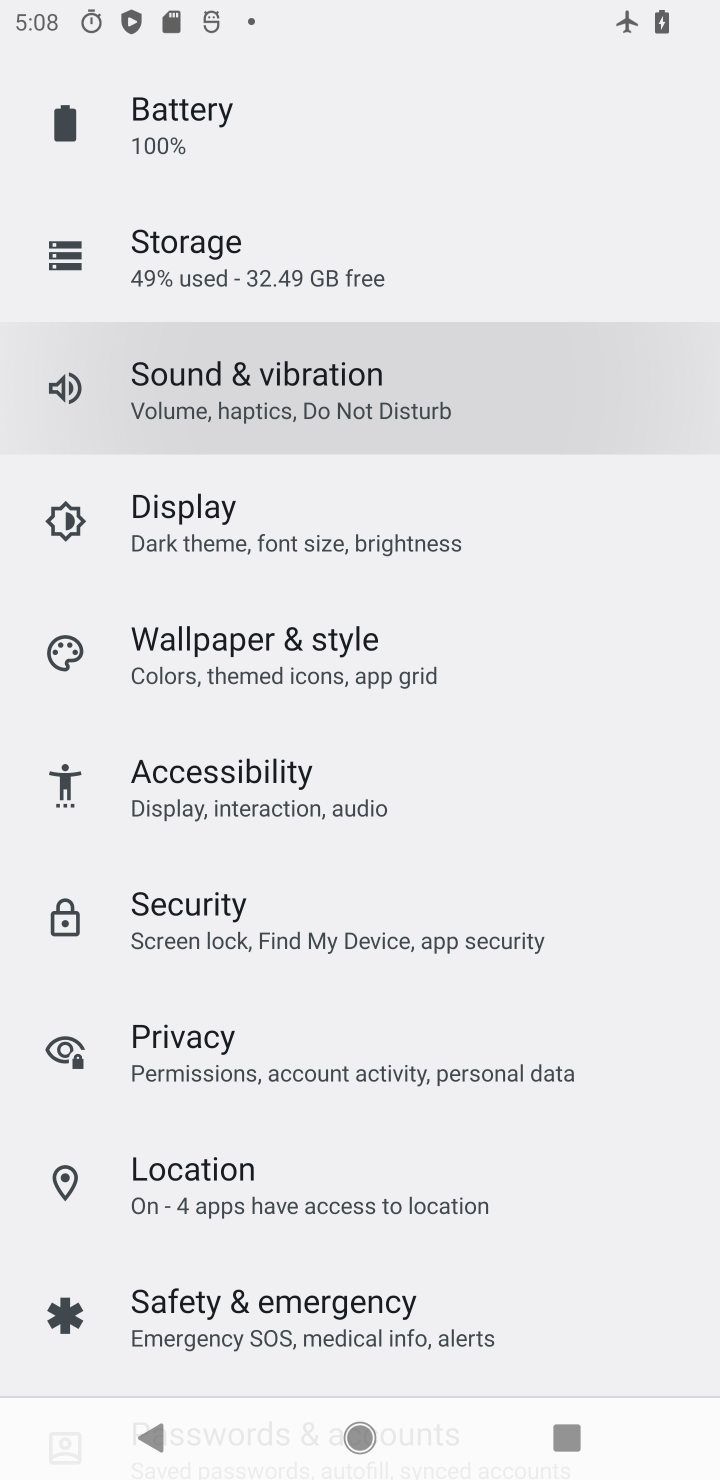
Step 28: drag from (492, 420) to (518, 1185)
Your task to perform on an android device: toggle location history Image 29: 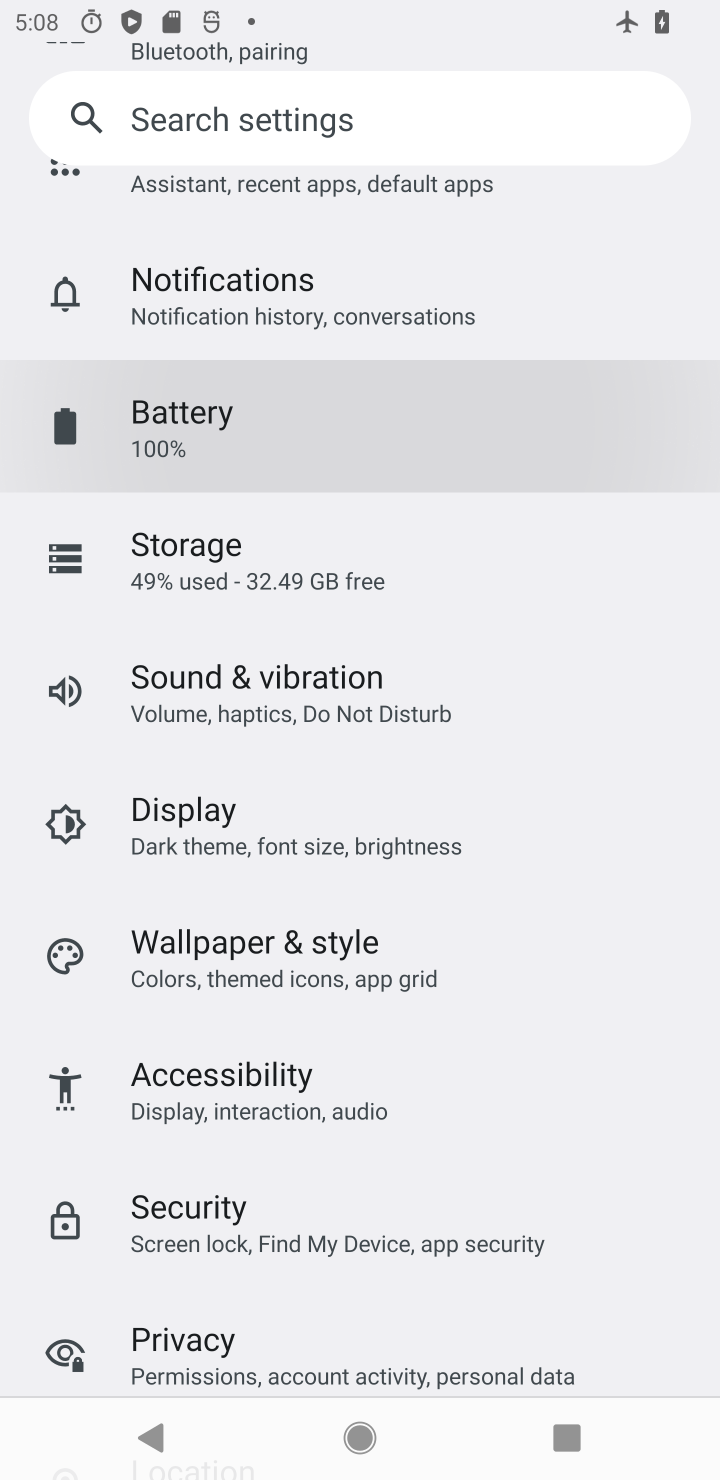
Step 29: drag from (396, 611) to (464, 1108)
Your task to perform on an android device: toggle location history Image 30: 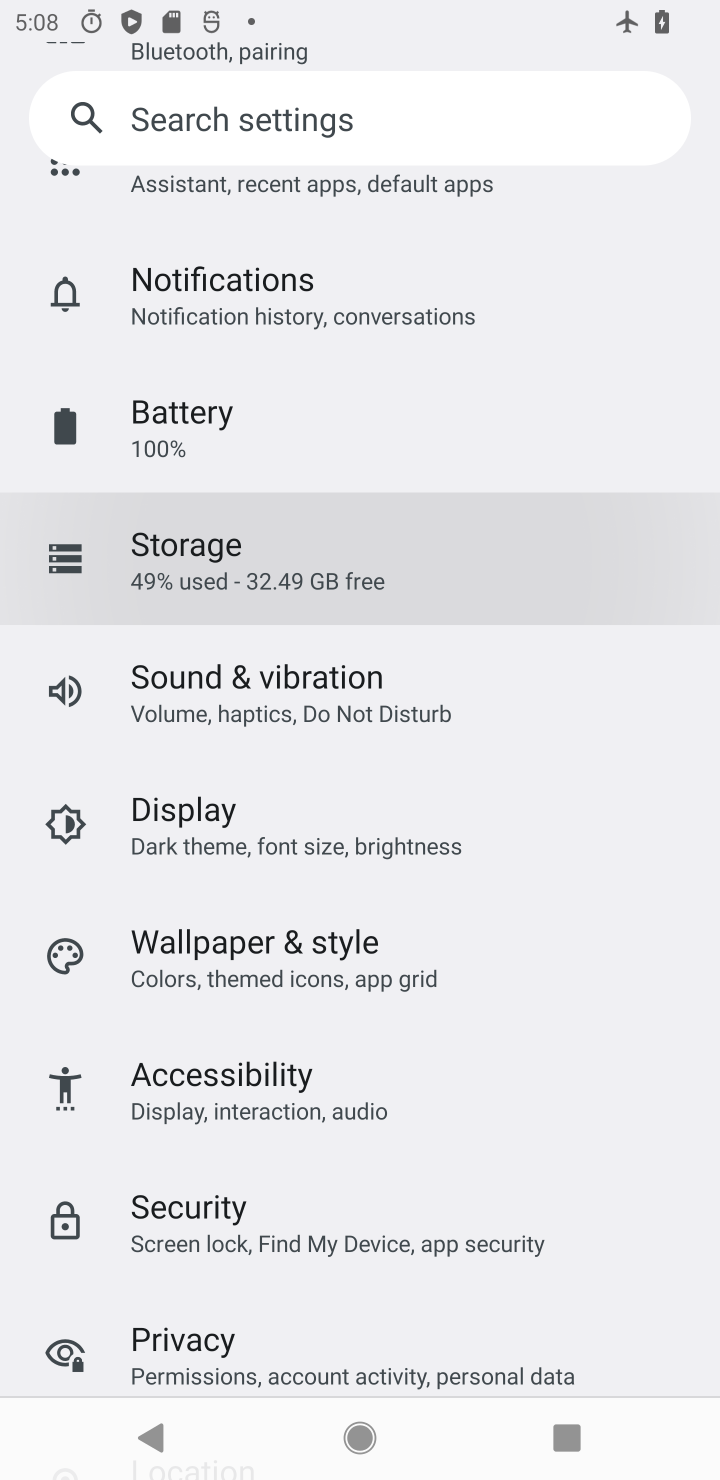
Step 30: drag from (365, 378) to (398, 1068)
Your task to perform on an android device: toggle location history Image 31: 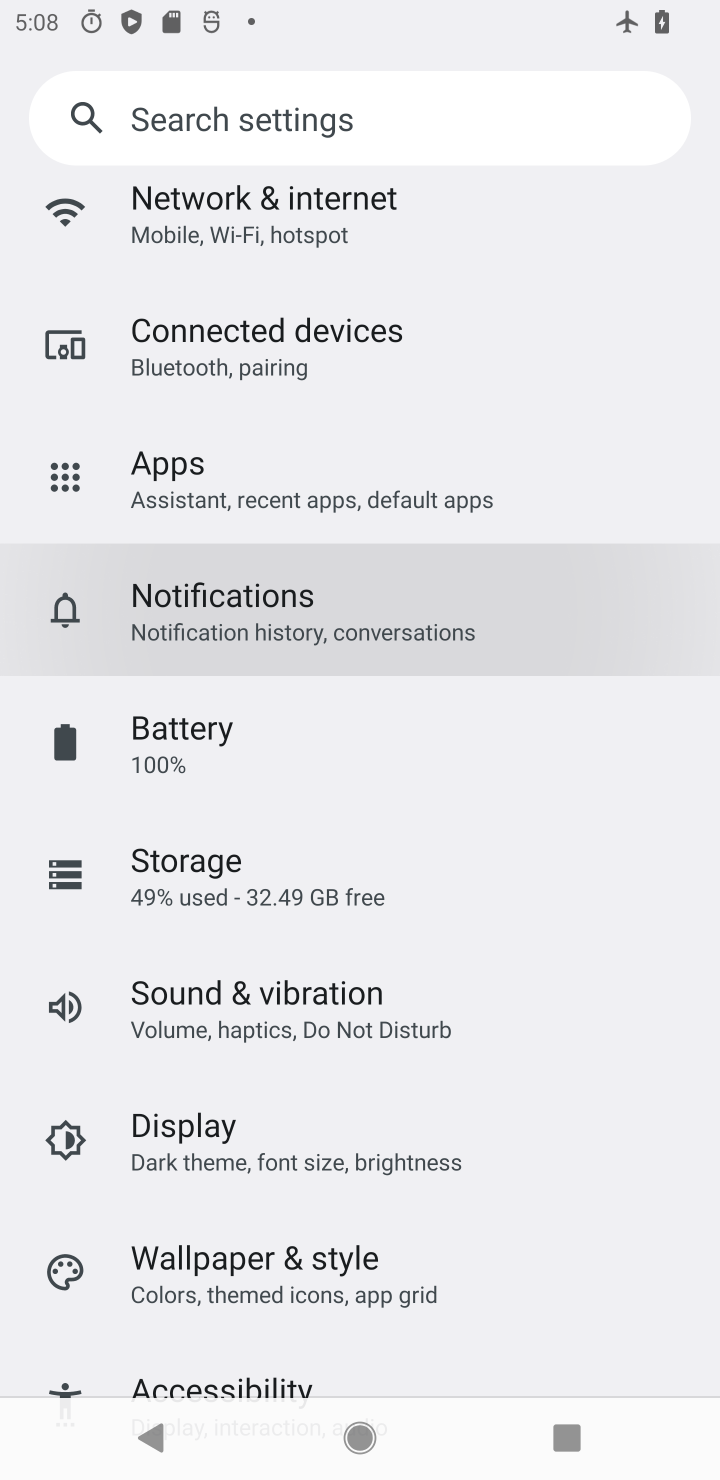
Step 31: drag from (344, 452) to (415, 954)
Your task to perform on an android device: toggle location history Image 32: 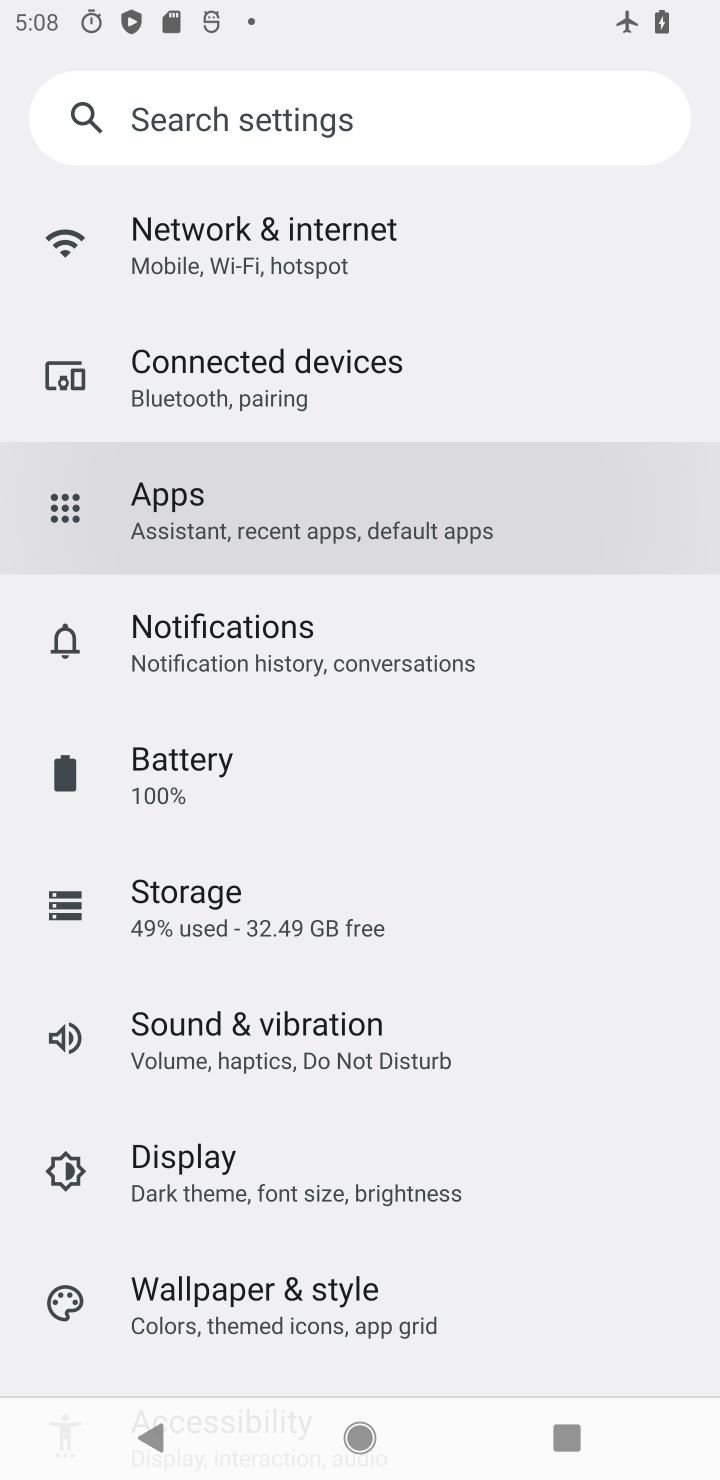
Step 32: drag from (394, 506) to (527, 981)
Your task to perform on an android device: toggle location history Image 33: 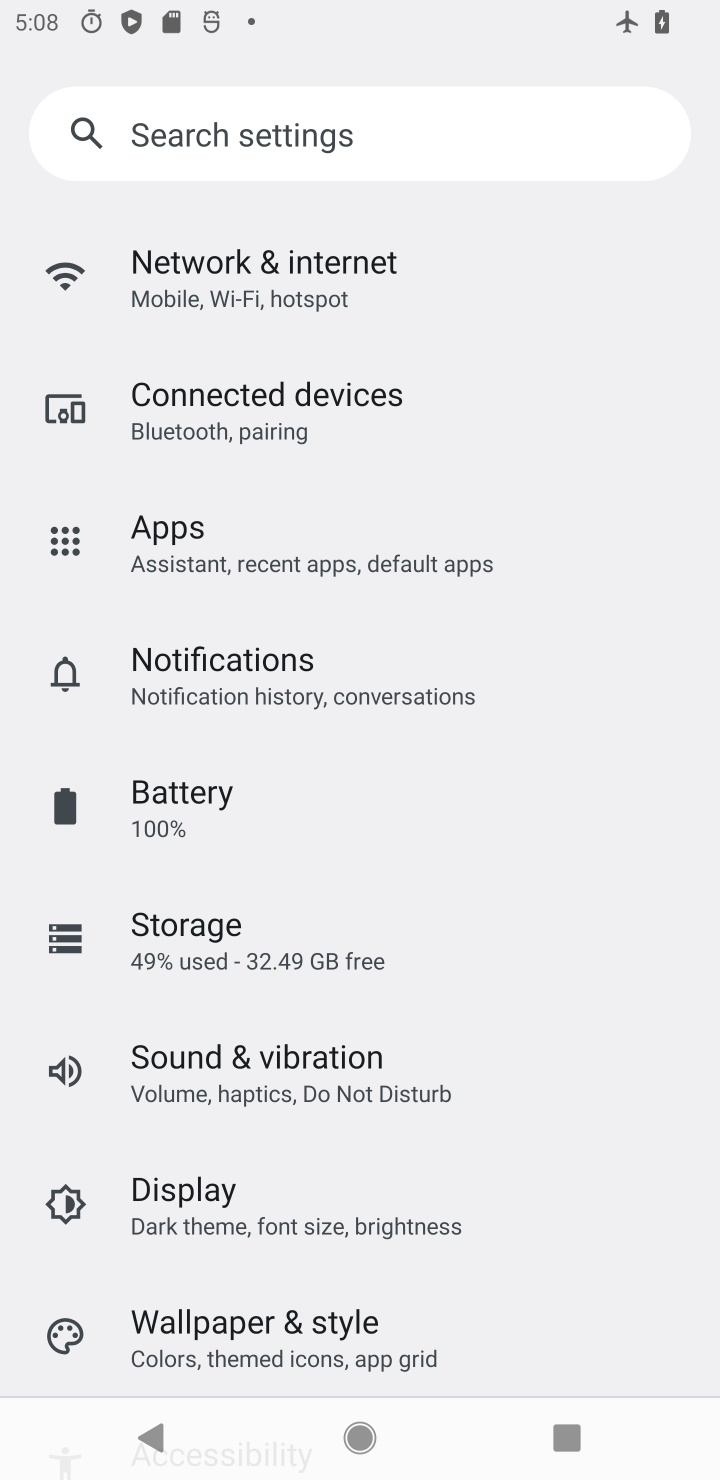
Step 33: drag from (330, 1203) to (195, 501)
Your task to perform on an android device: toggle location history Image 34: 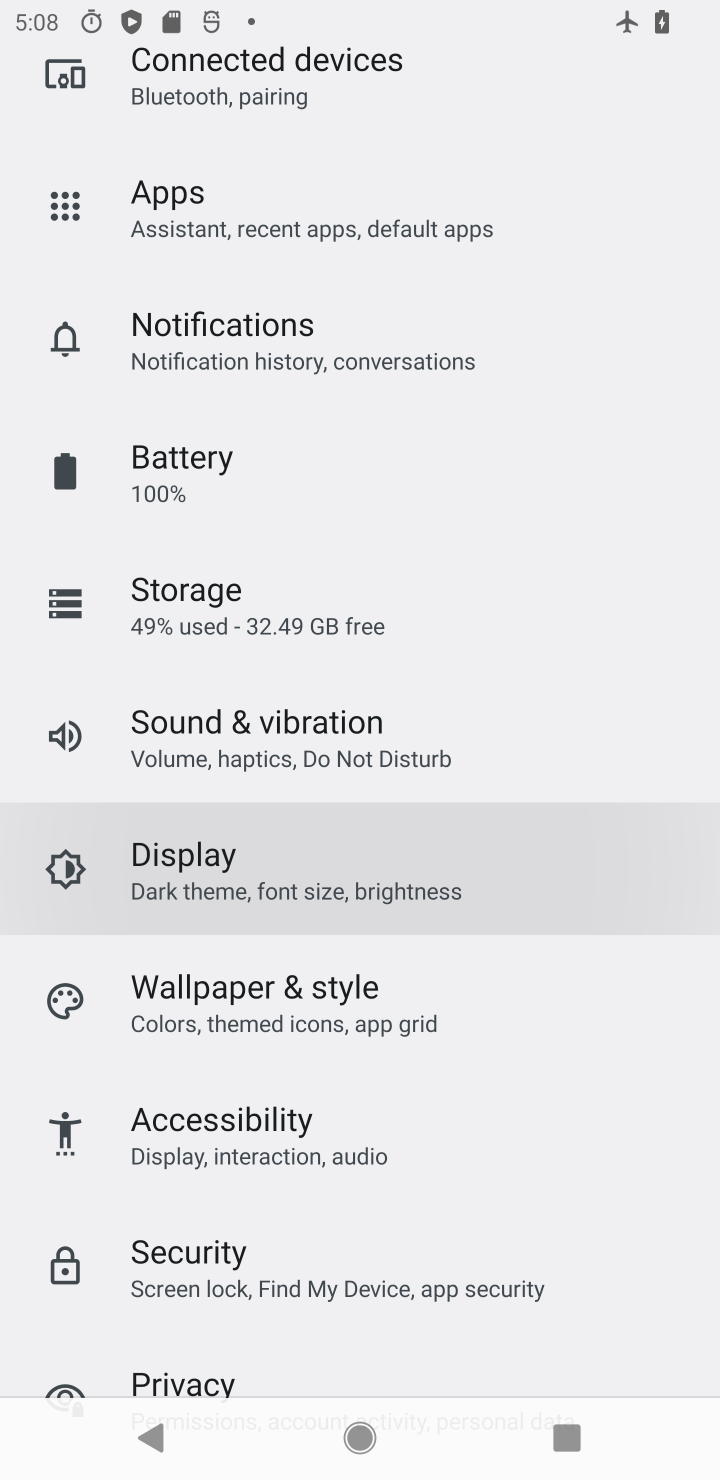
Step 34: drag from (458, 1136) to (453, 403)
Your task to perform on an android device: toggle location history Image 35: 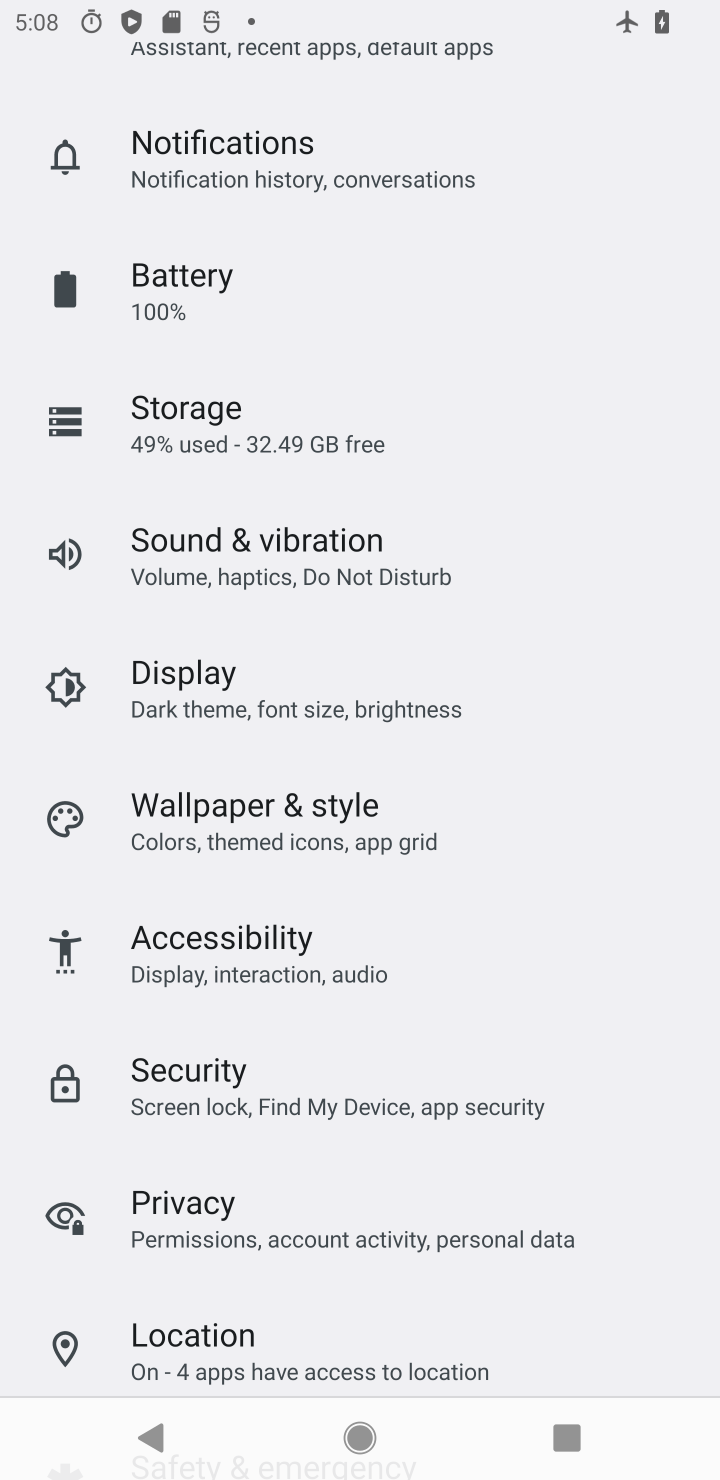
Step 35: drag from (403, 1088) to (434, 934)
Your task to perform on an android device: toggle location history Image 36: 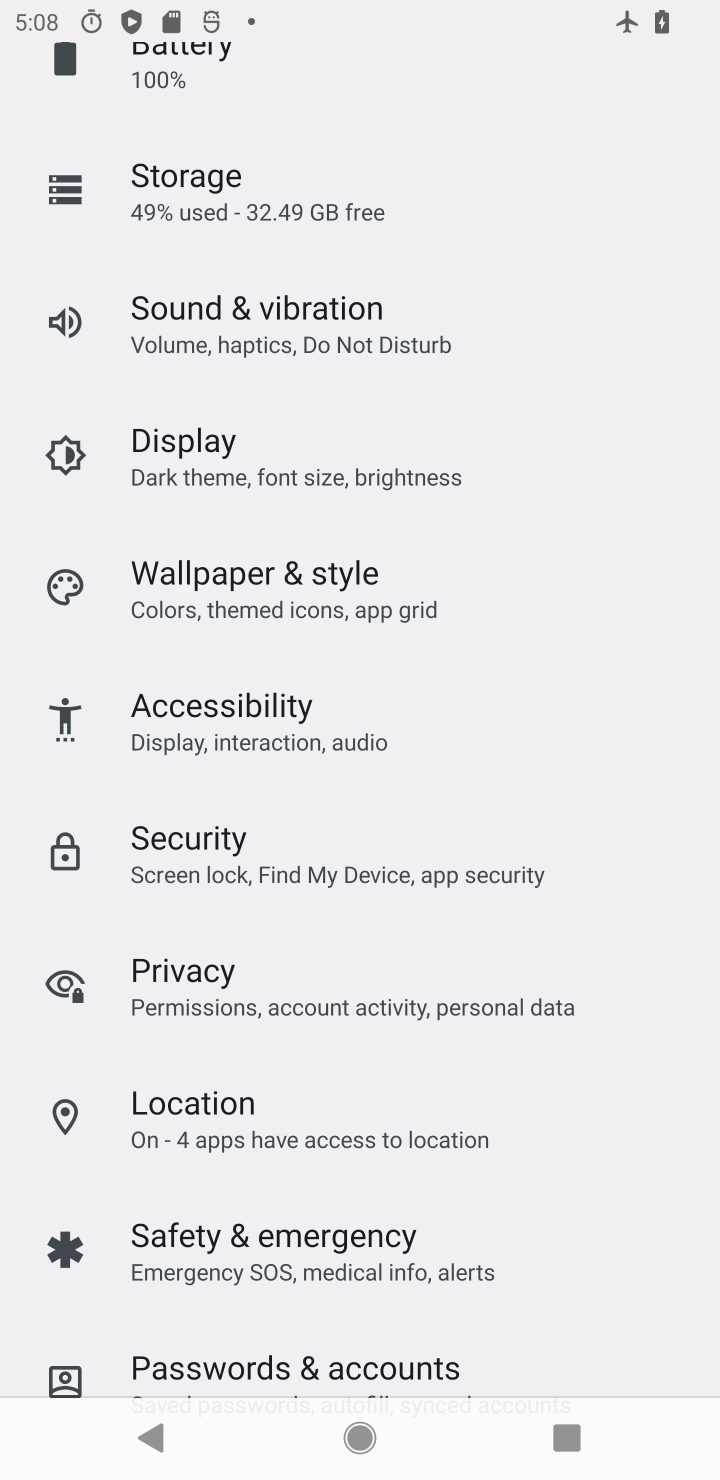
Step 36: click (197, 412)
Your task to perform on an android device: toggle location history Image 37: 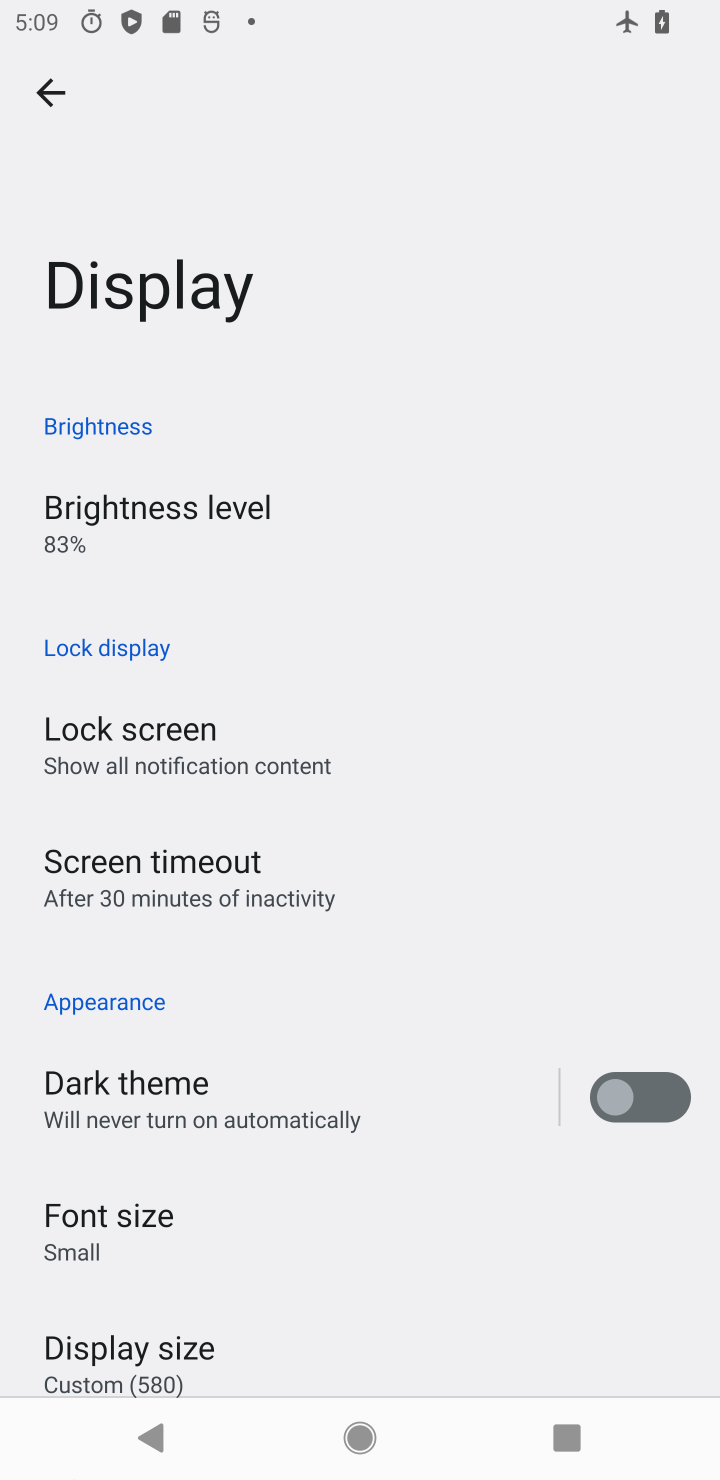
Step 37: click (47, 88)
Your task to perform on an android device: toggle location history Image 38: 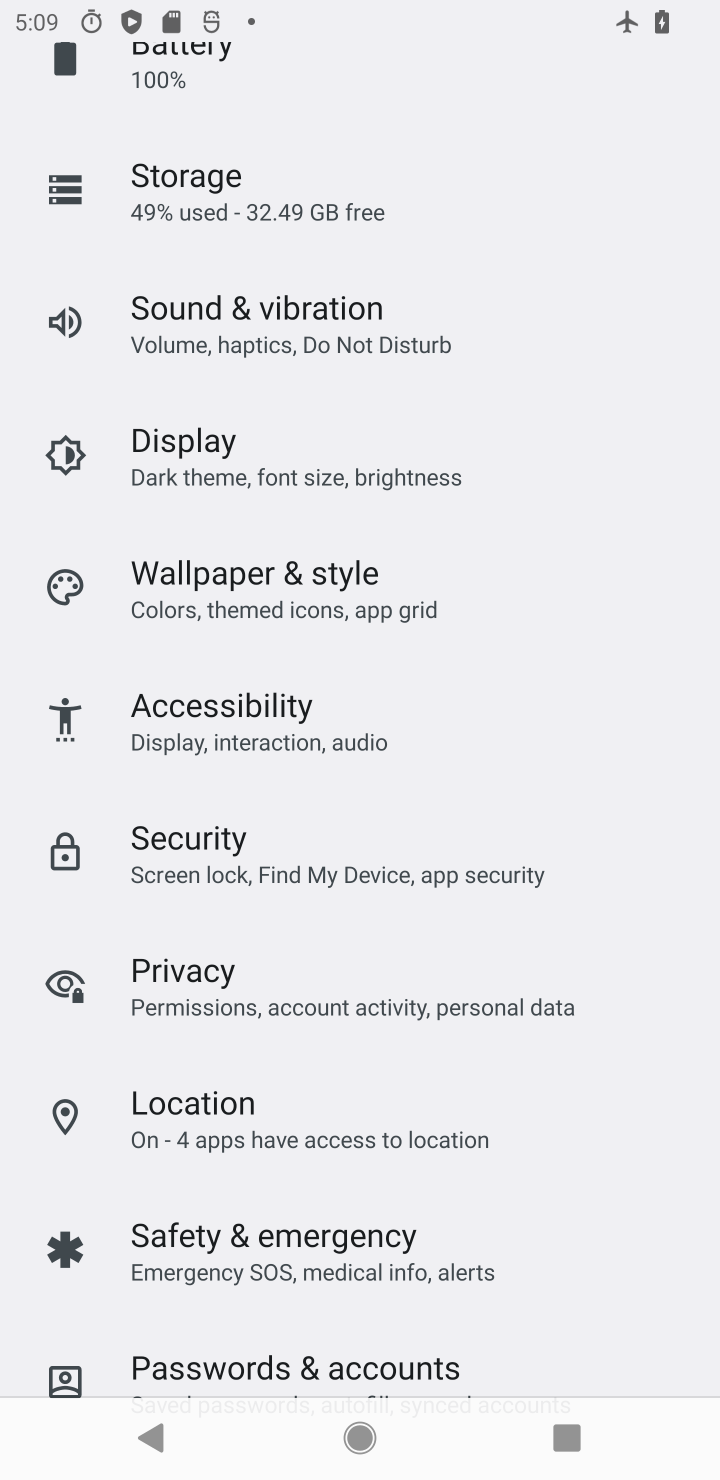
Step 38: click (212, 1093)
Your task to perform on an android device: toggle location history Image 39: 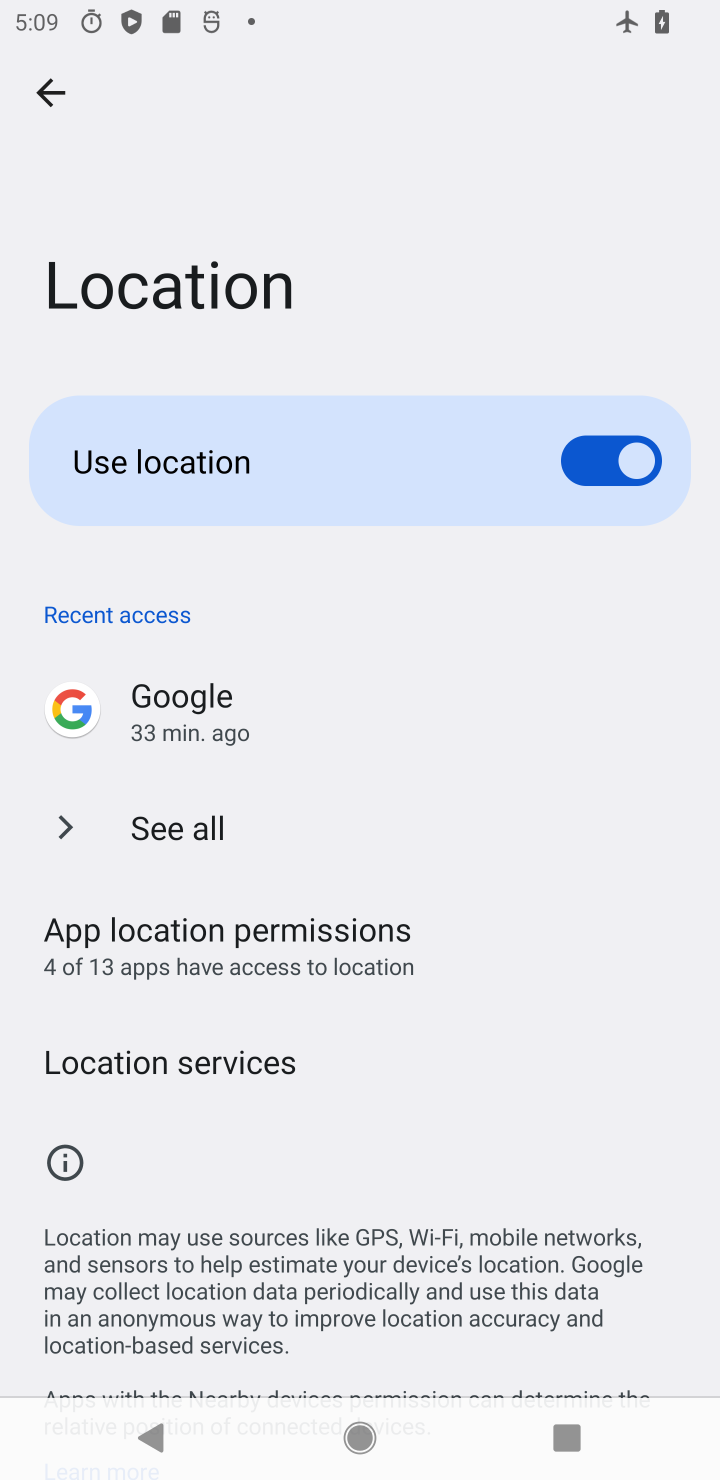
Step 39: drag from (206, 996) to (149, 375)
Your task to perform on an android device: toggle location history Image 40: 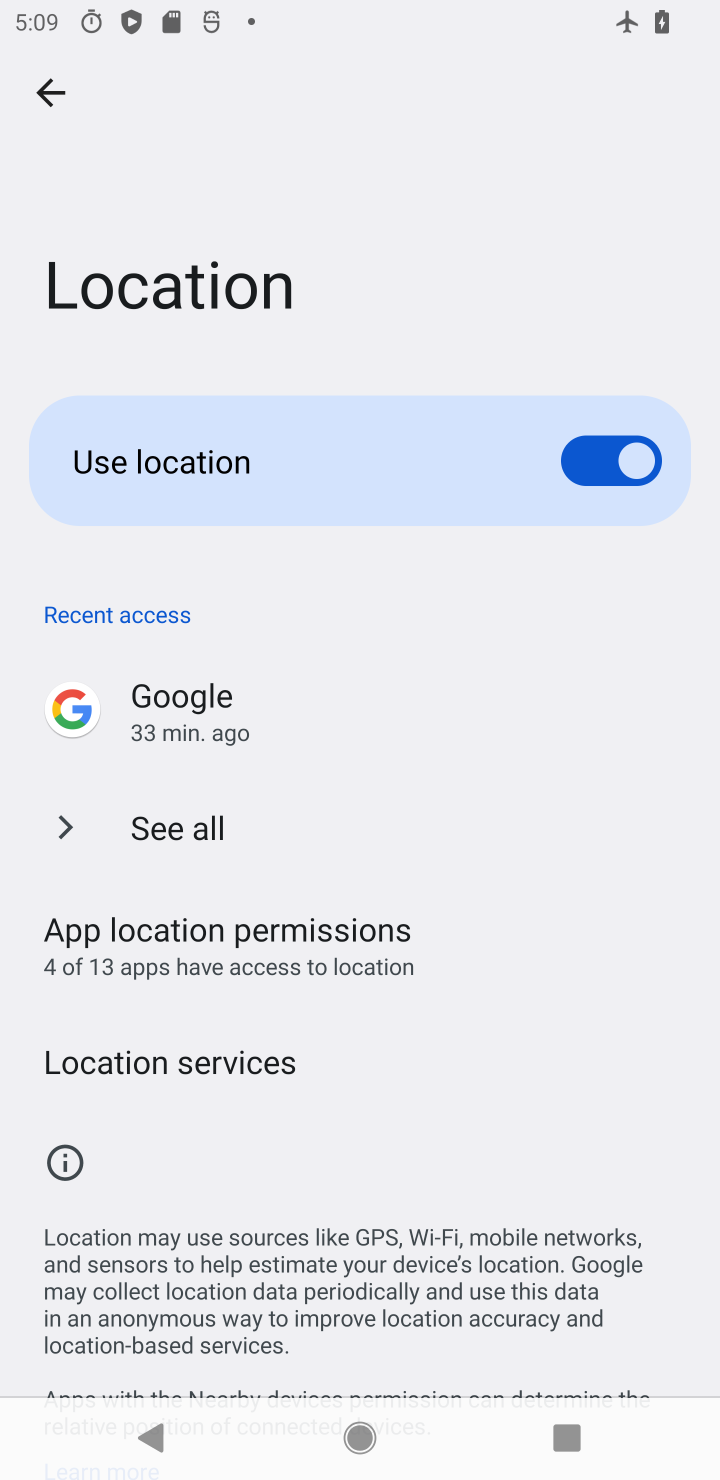
Step 40: drag from (336, 931) to (328, 469)
Your task to perform on an android device: toggle location history Image 41: 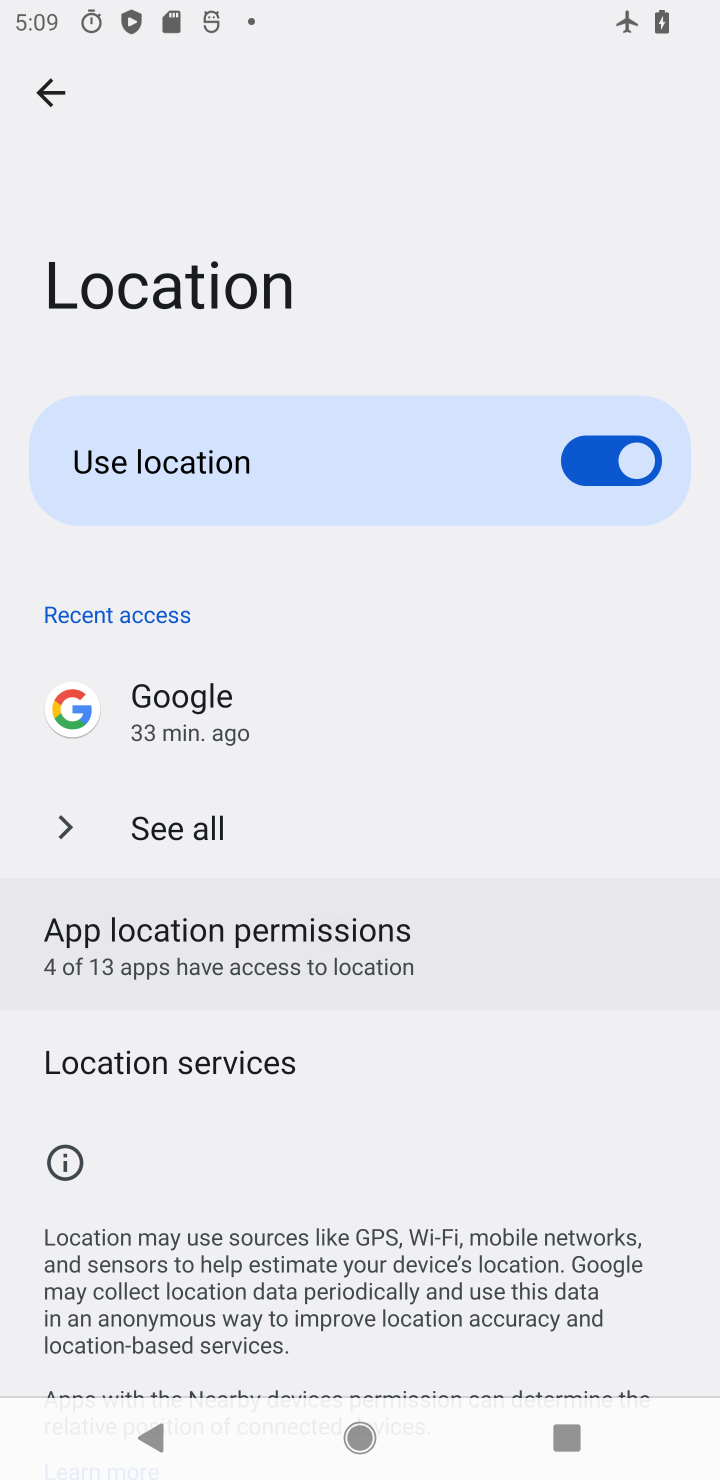
Step 41: click (464, 307)
Your task to perform on an android device: toggle location history Image 42: 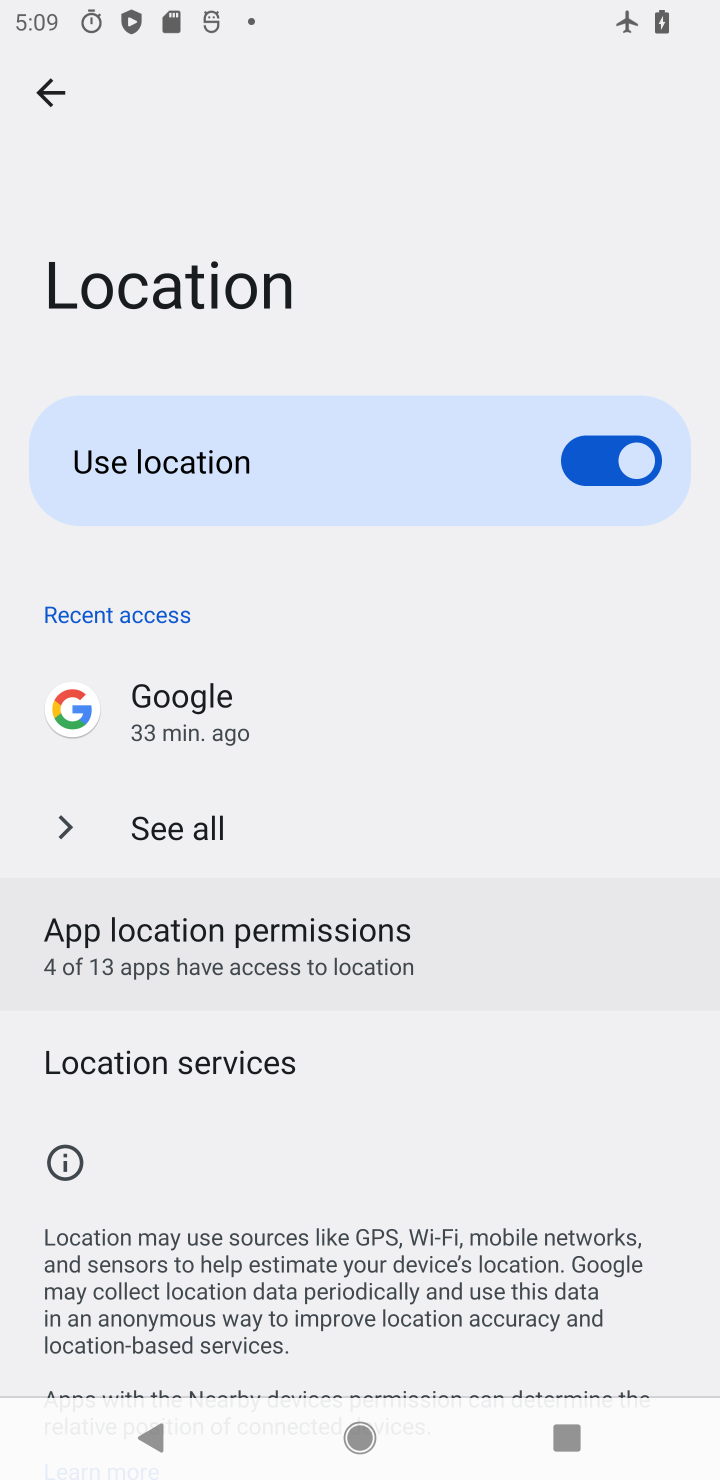
Step 42: drag from (413, 961) to (386, 198)
Your task to perform on an android device: toggle location history Image 43: 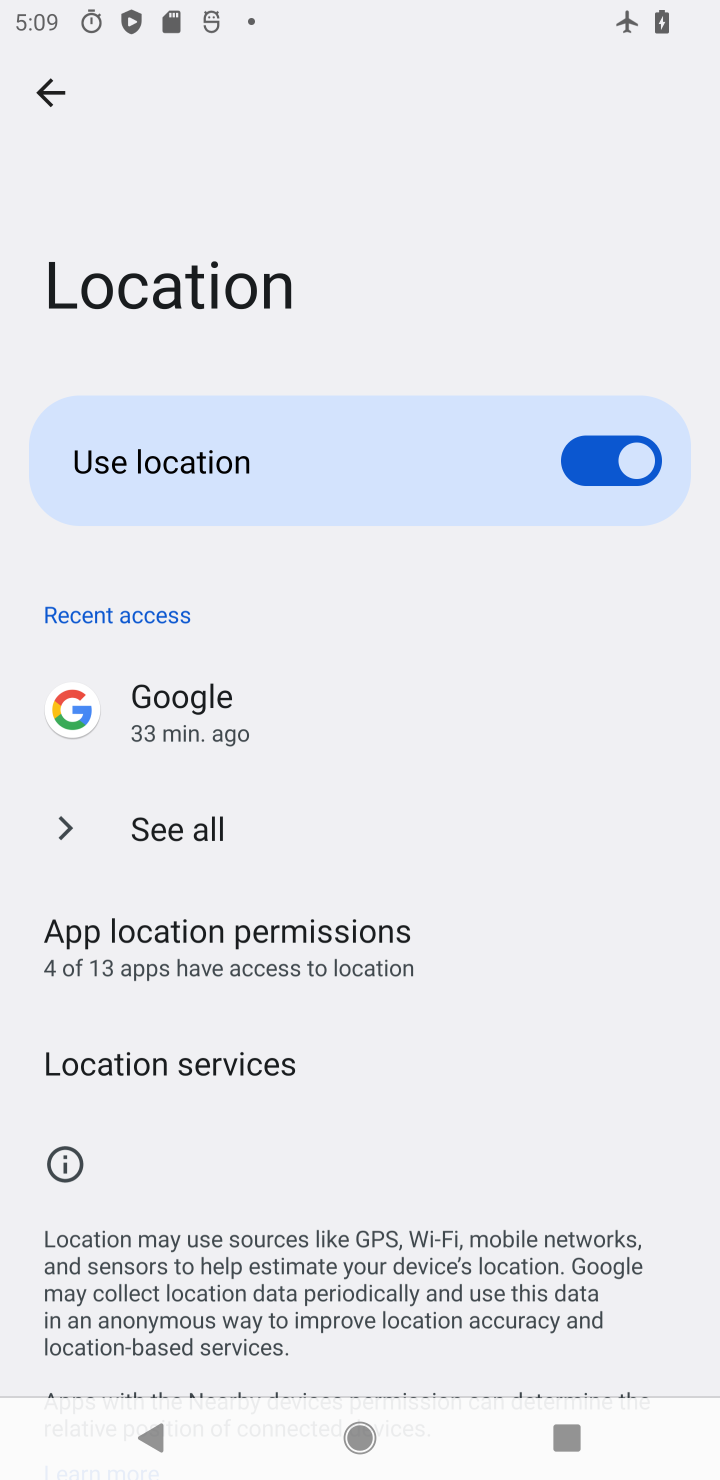
Step 43: drag from (312, 823) to (312, 524)
Your task to perform on an android device: toggle location history Image 44: 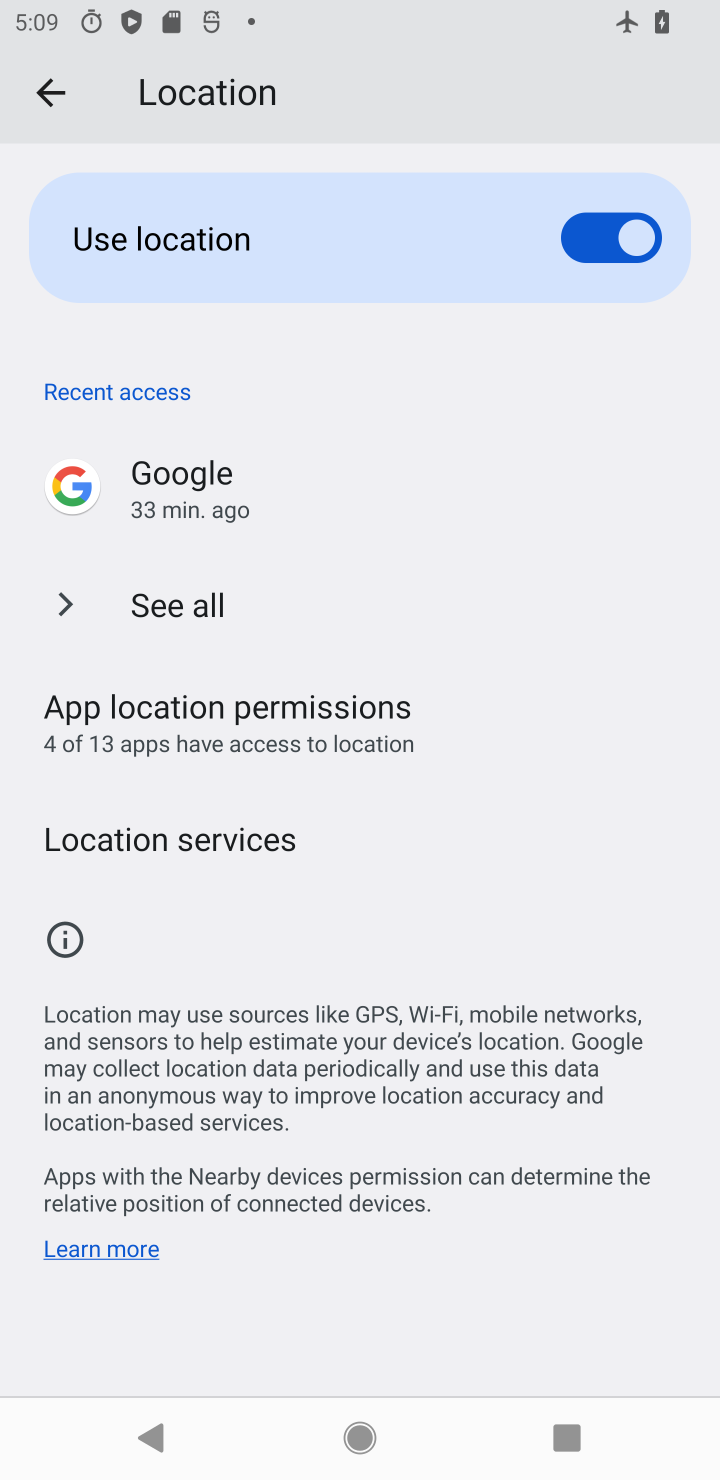
Step 44: drag from (418, 422) to (467, 937)
Your task to perform on an android device: toggle location history Image 45: 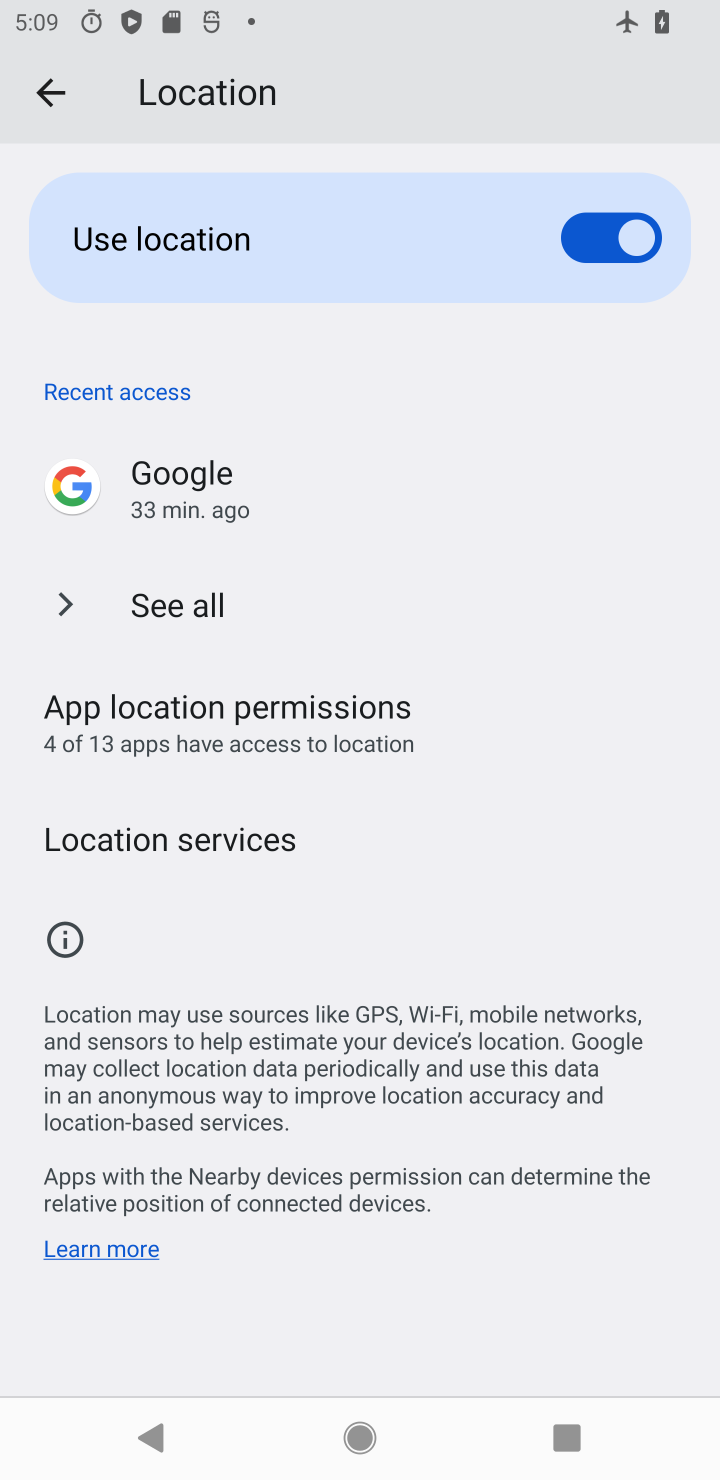
Step 45: click (622, 237)
Your task to perform on an android device: toggle location history Image 46: 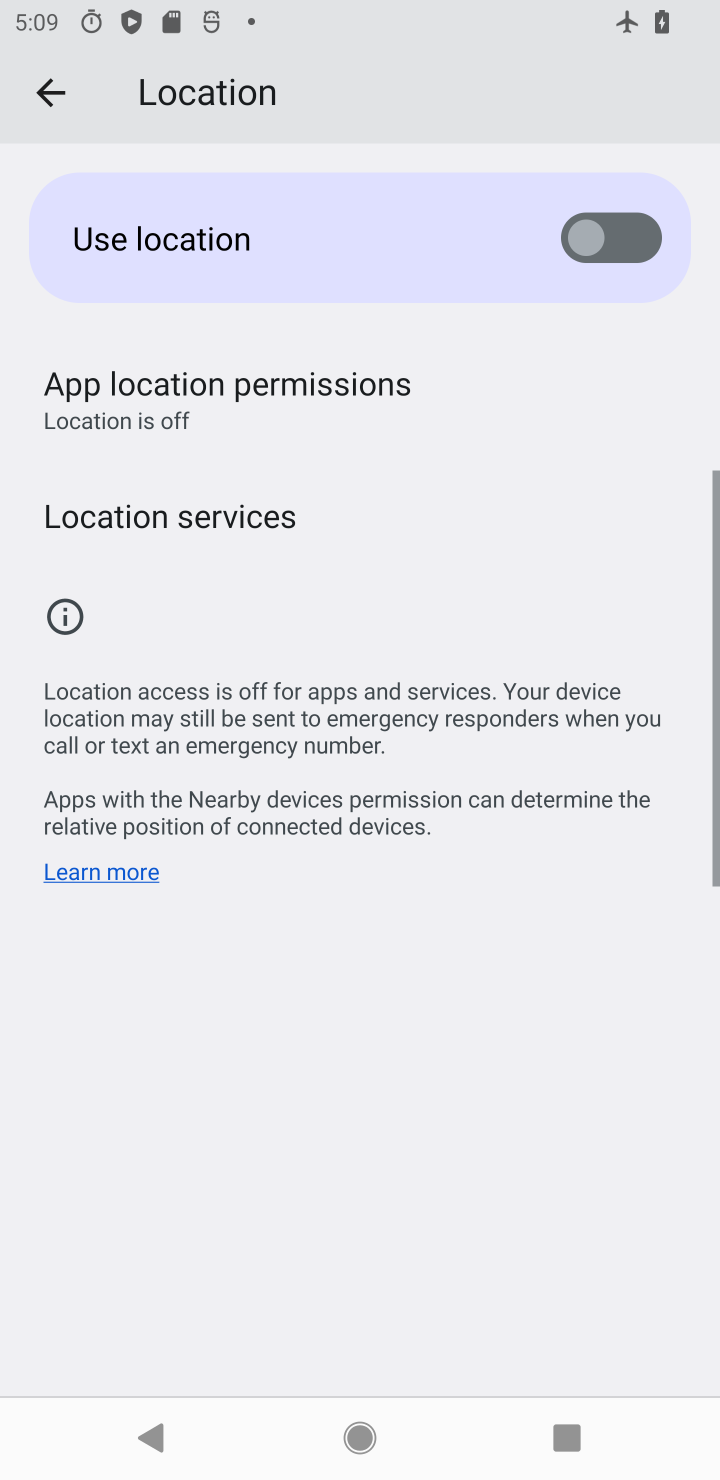
Step 46: task complete